Your task to perform on an android device: Check out the best rated 4k TV on Best Buy. Image 0: 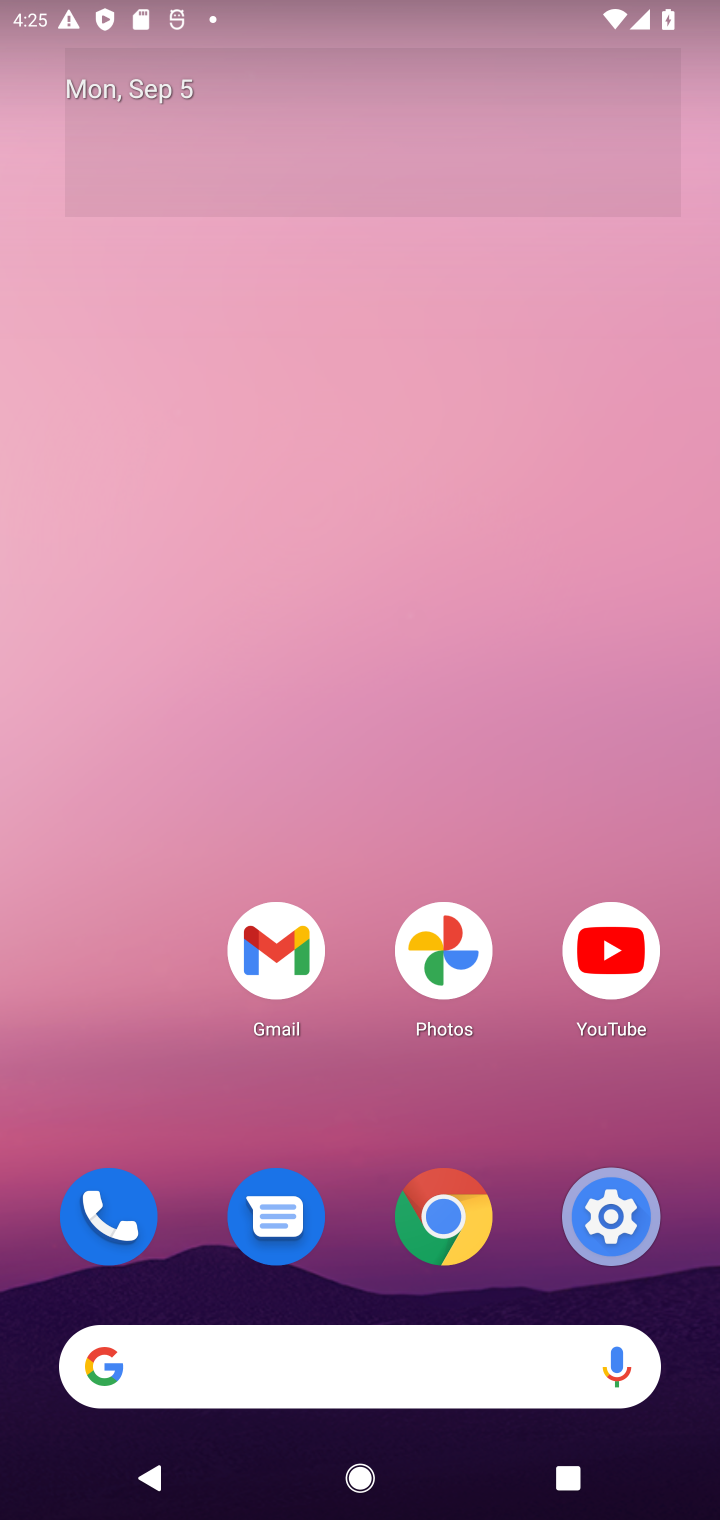
Step 0: click (81, 1374)
Your task to perform on an android device: Check out the best rated 4k TV on Best Buy. Image 1: 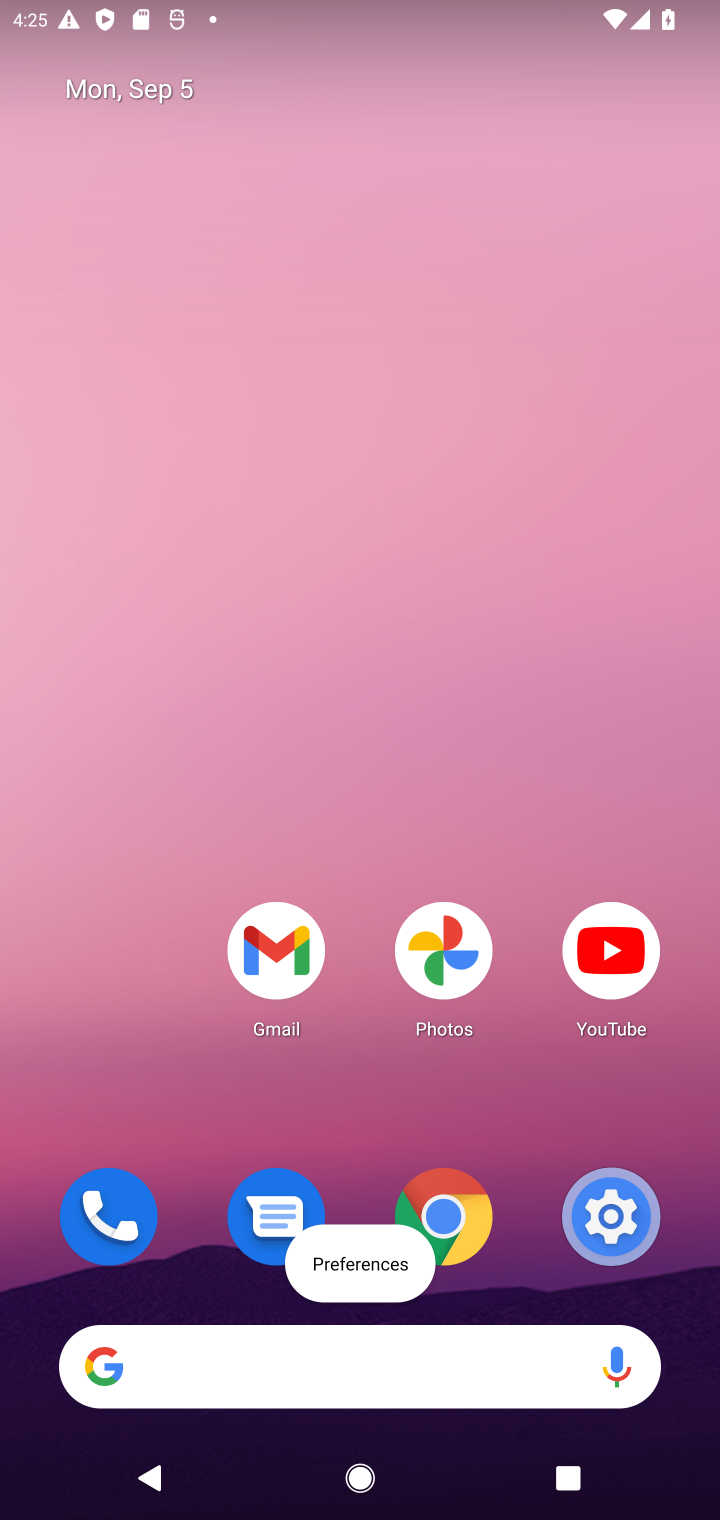
Step 1: click (105, 1364)
Your task to perform on an android device: Check out the best rated 4k TV on Best Buy. Image 2: 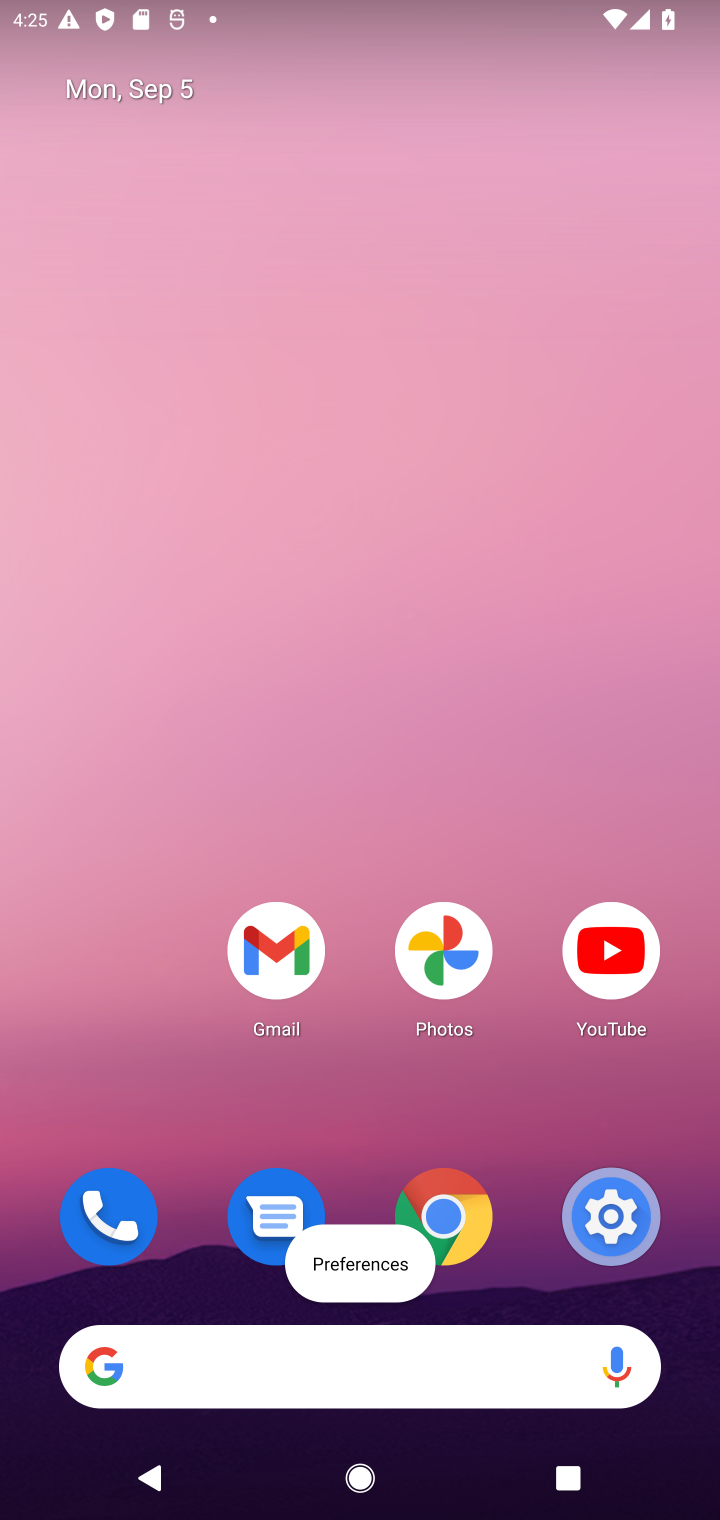
Step 2: click (100, 1364)
Your task to perform on an android device: Check out the best rated 4k TV on Best Buy. Image 3: 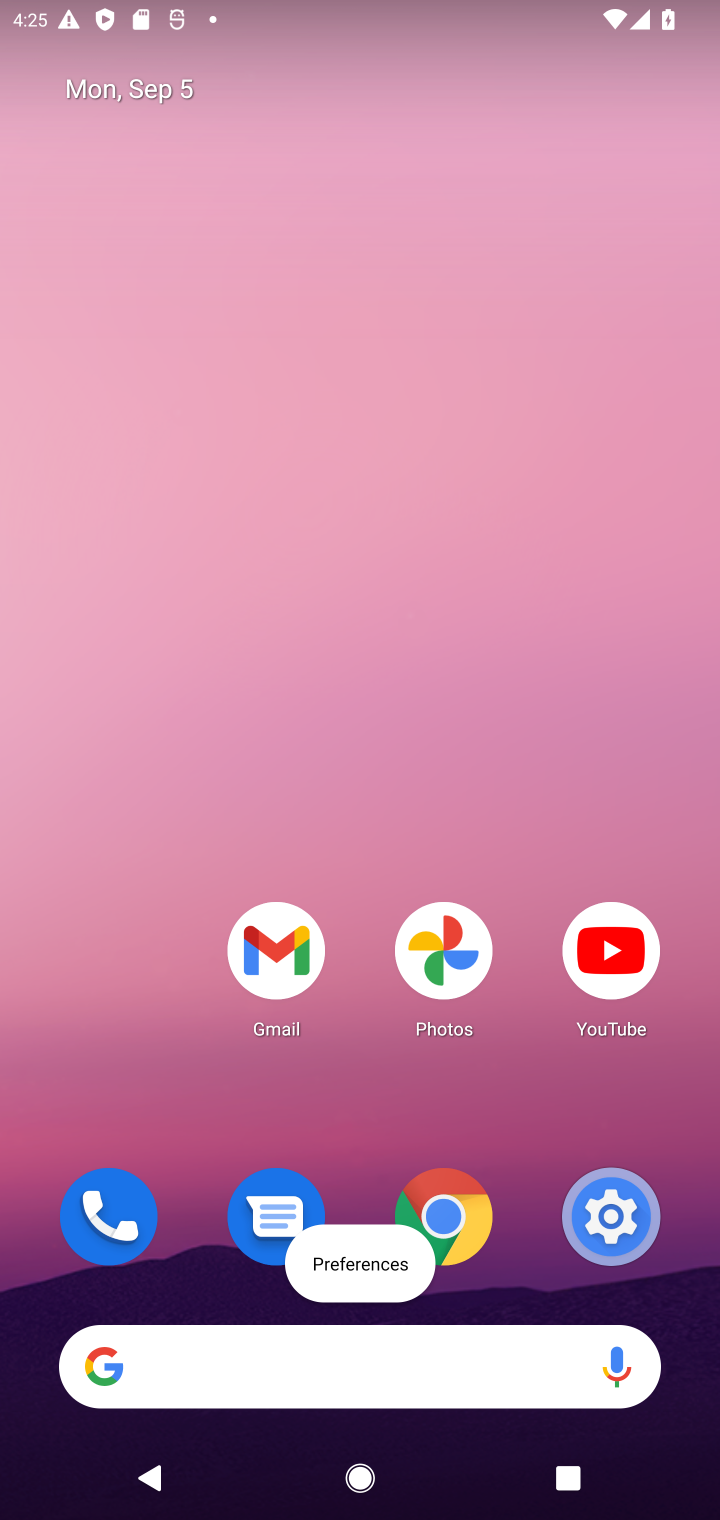
Step 3: click (100, 1364)
Your task to perform on an android device: Check out the best rated 4k TV on Best Buy. Image 4: 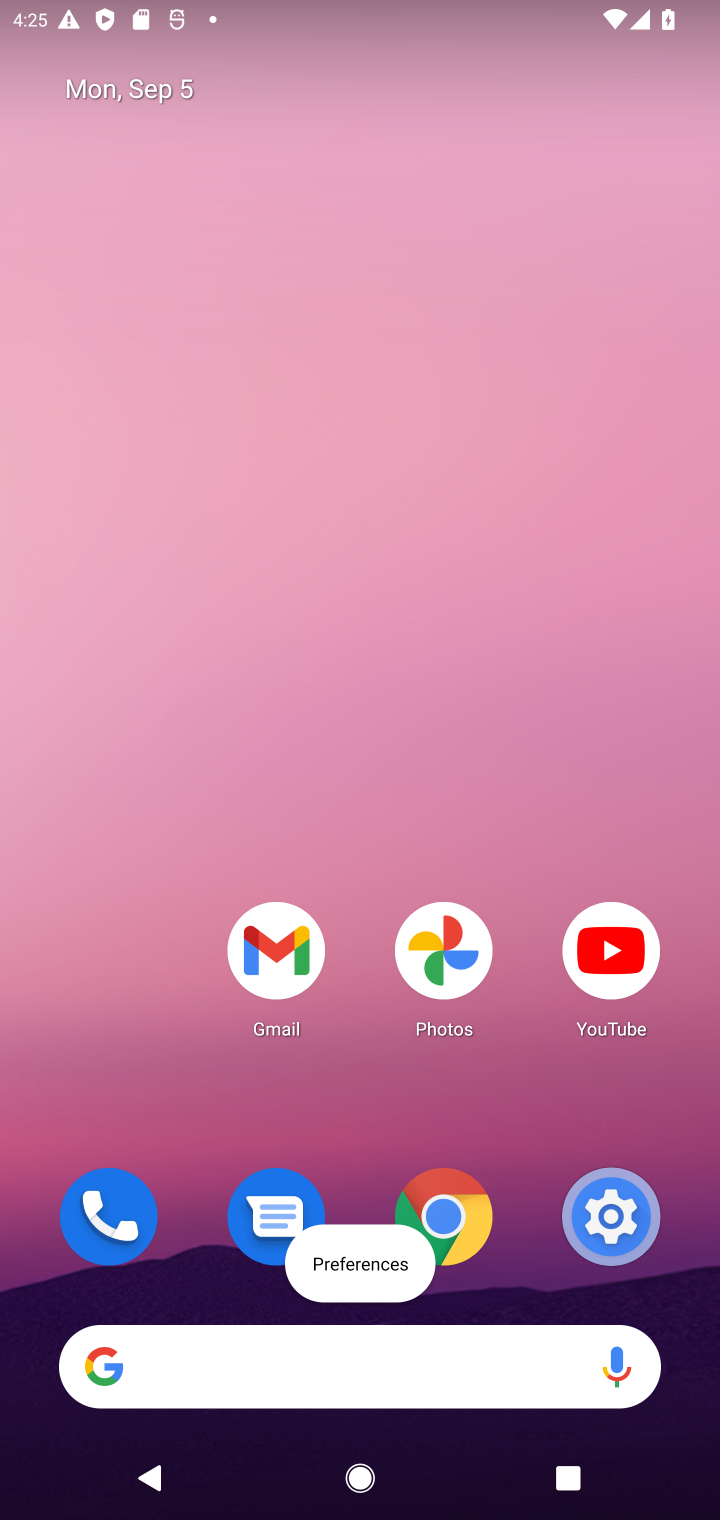
Step 4: click (92, 1375)
Your task to perform on an android device: Check out the best rated 4k TV on Best Buy. Image 5: 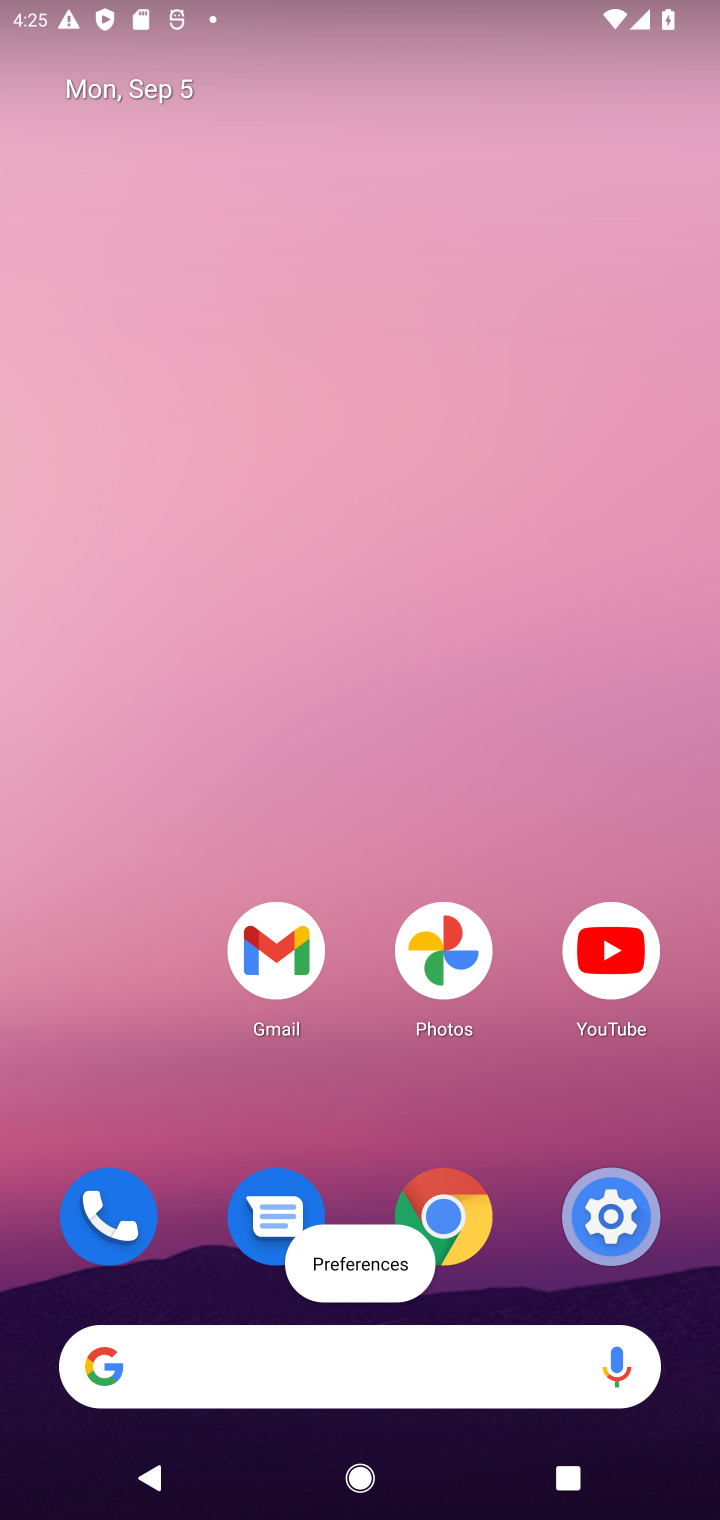
Step 5: click (89, 1369)
Your task to perform on an android device: Check out the best rated 4k TV on Best Buy. Image 6: 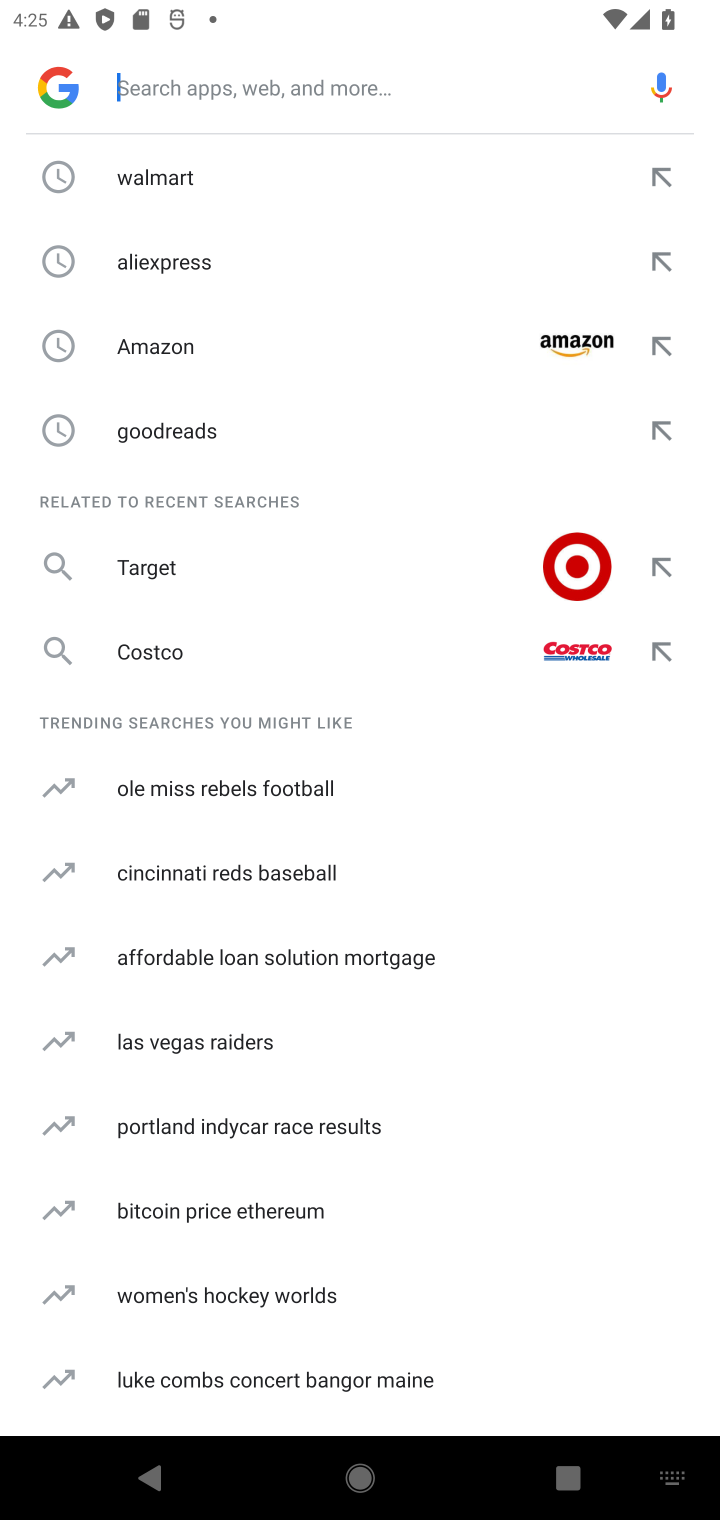
Step 6: type " Best Buy"
Your task to perform on an android device: Check out the best rated 4k TV on Best Buy. Image 7: 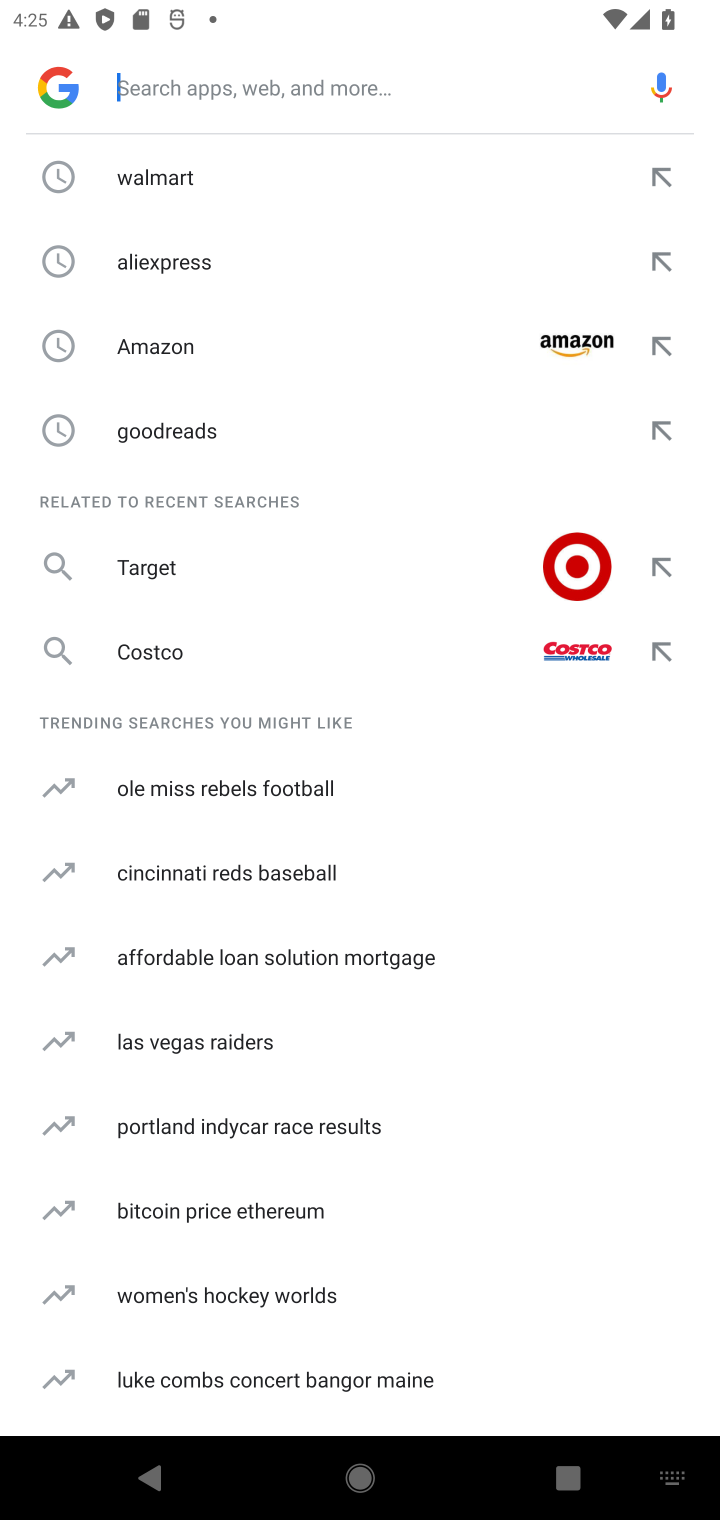
Step 7: click (191, 78)
Your task to perform on an android device: Check out the best rated 4k TV on Best Buy. Image 8: 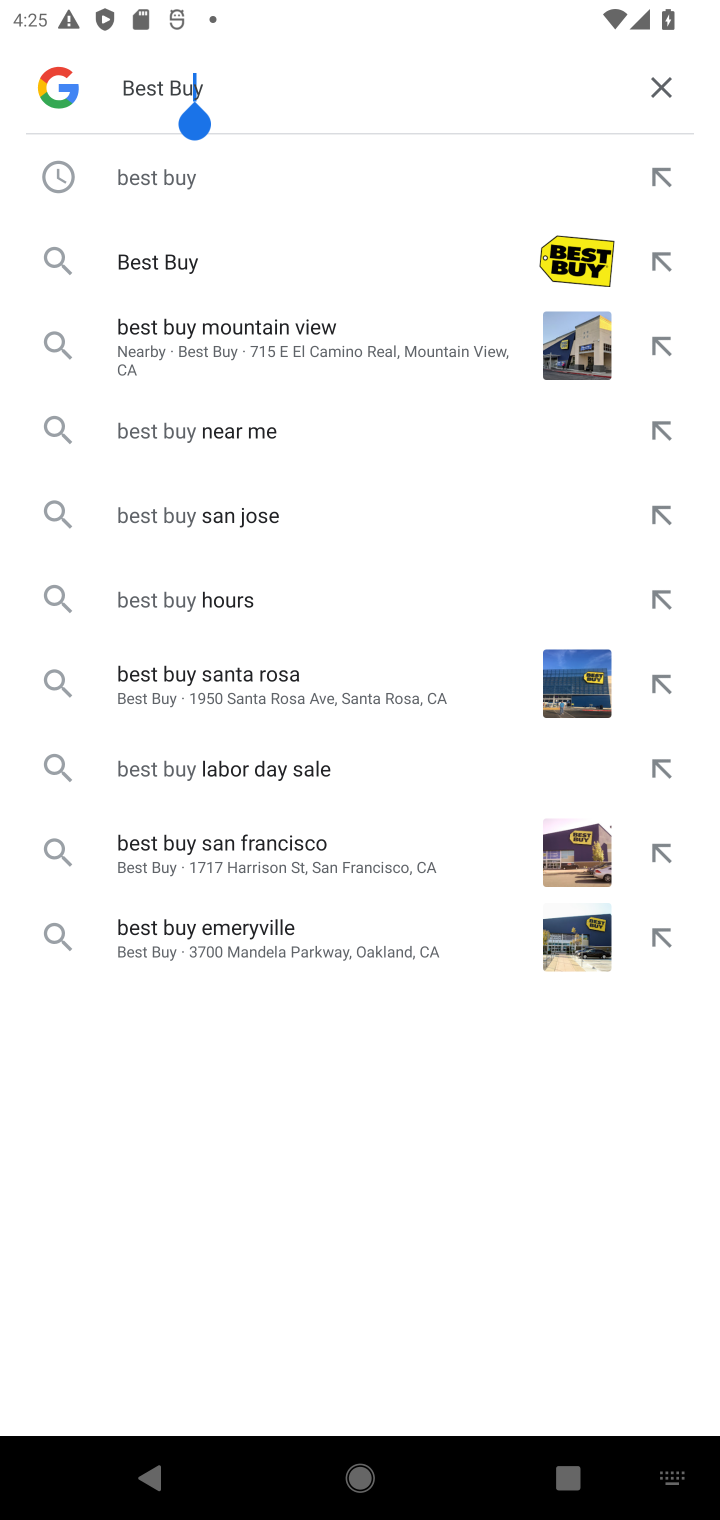
Step 8: press enter
Your task to perform on an android device: Check out the best rated 4k TV on Best Buy. Image 9: 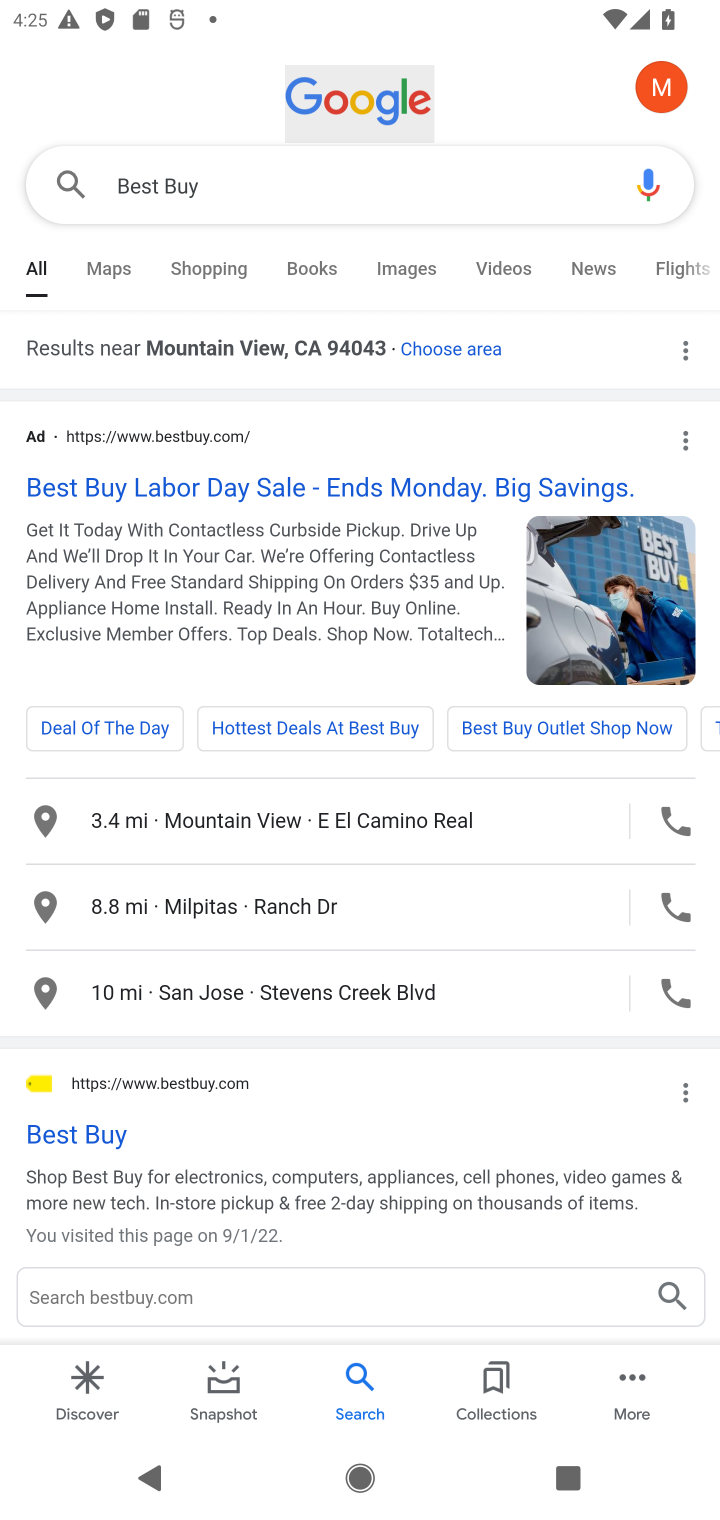
Step 9: click (53, 1139)
Your task to perform on an android device: Check out the best rated 4k TV on Best Buy. Image 10: 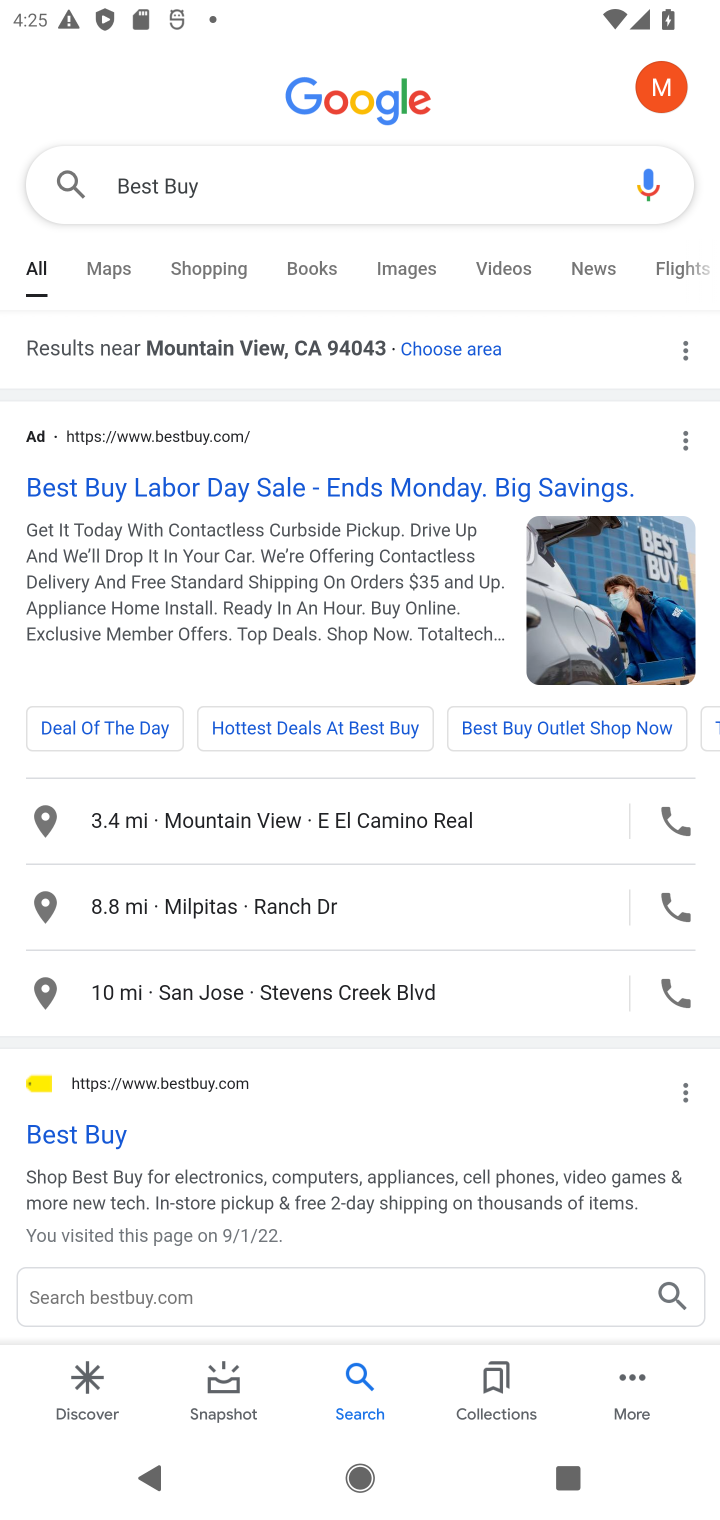
Step 10: click (95, 1132)
Your task to perform on an android device: Check out the best rated 4k TV on Best Buy. Image 11: 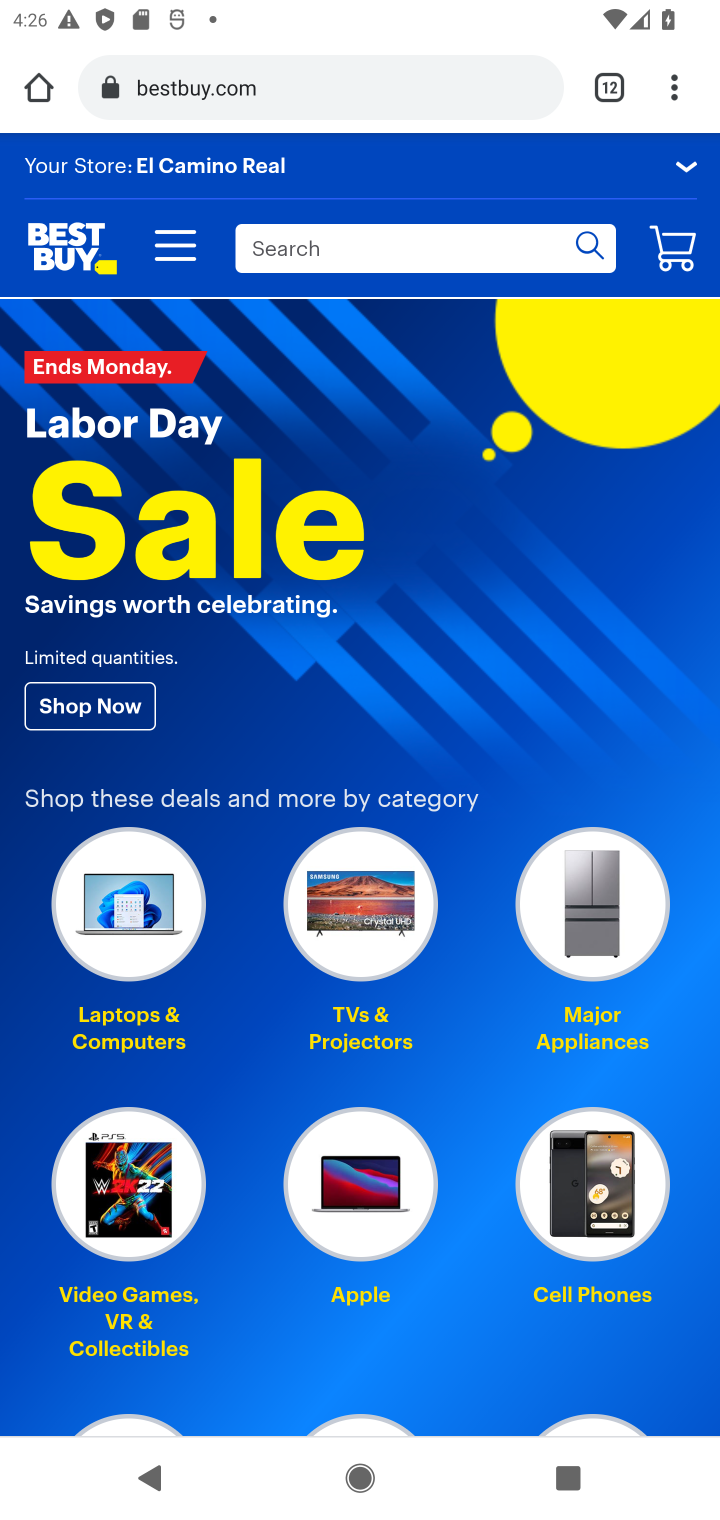
Step 11: click (411, 240)
Your task to perform on an android device: Check out the best rated 4k TV on Best Buy. Image 12: 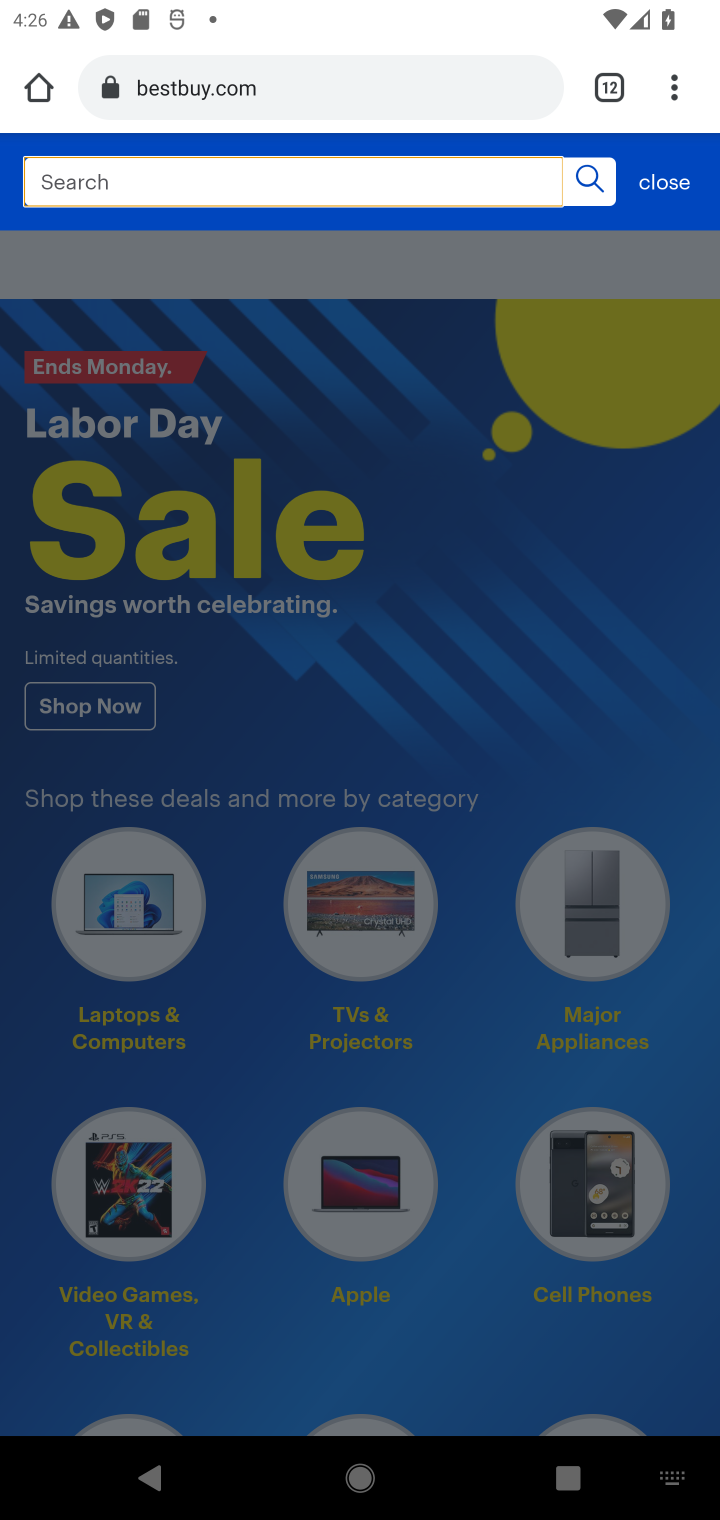
Step 12: type "4k TV"
Your task to perform on an android device: Check out the best rated 4k TV on Best Buy. Image 13: 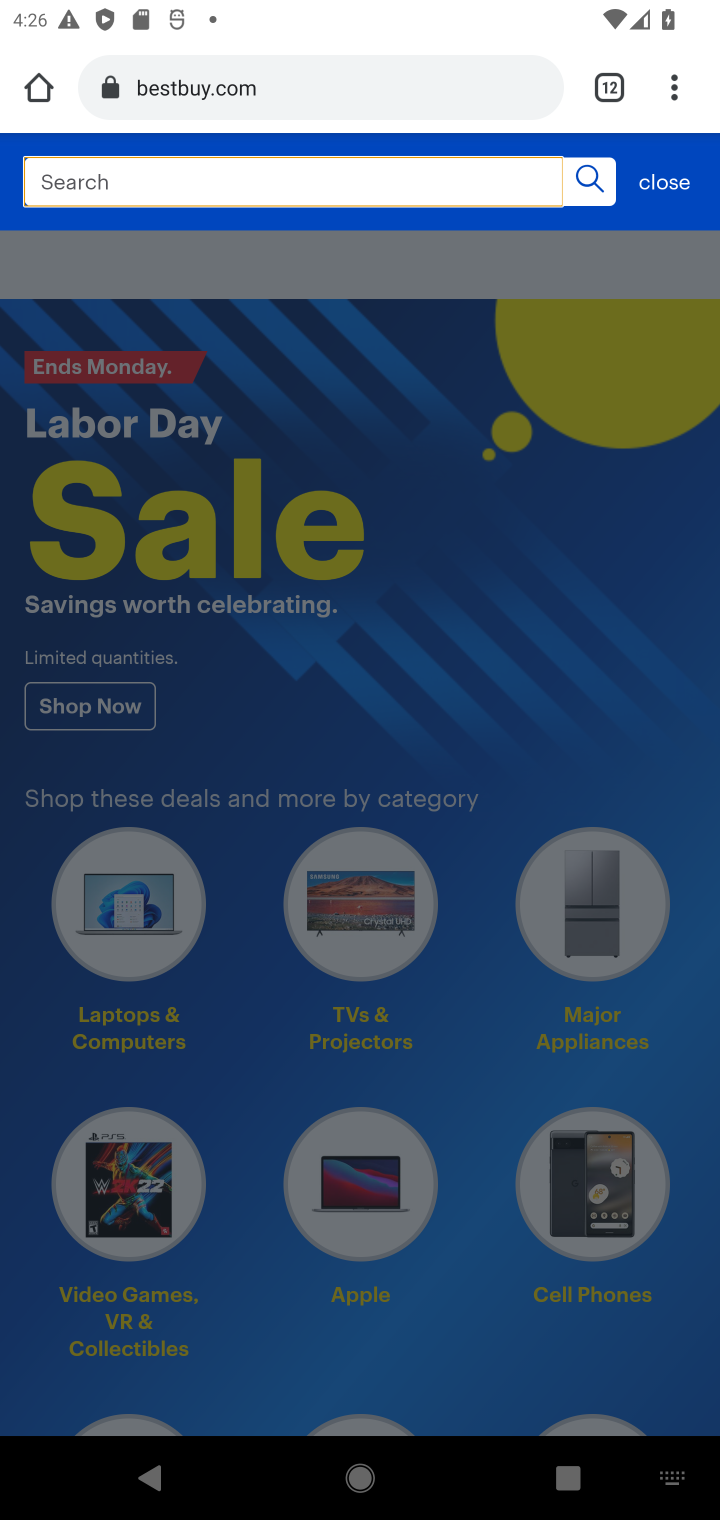
Step 13: click (217, 173)
Your task to perform on an android device: Check out the best rated 4k TV on Best Buy. Image 14: 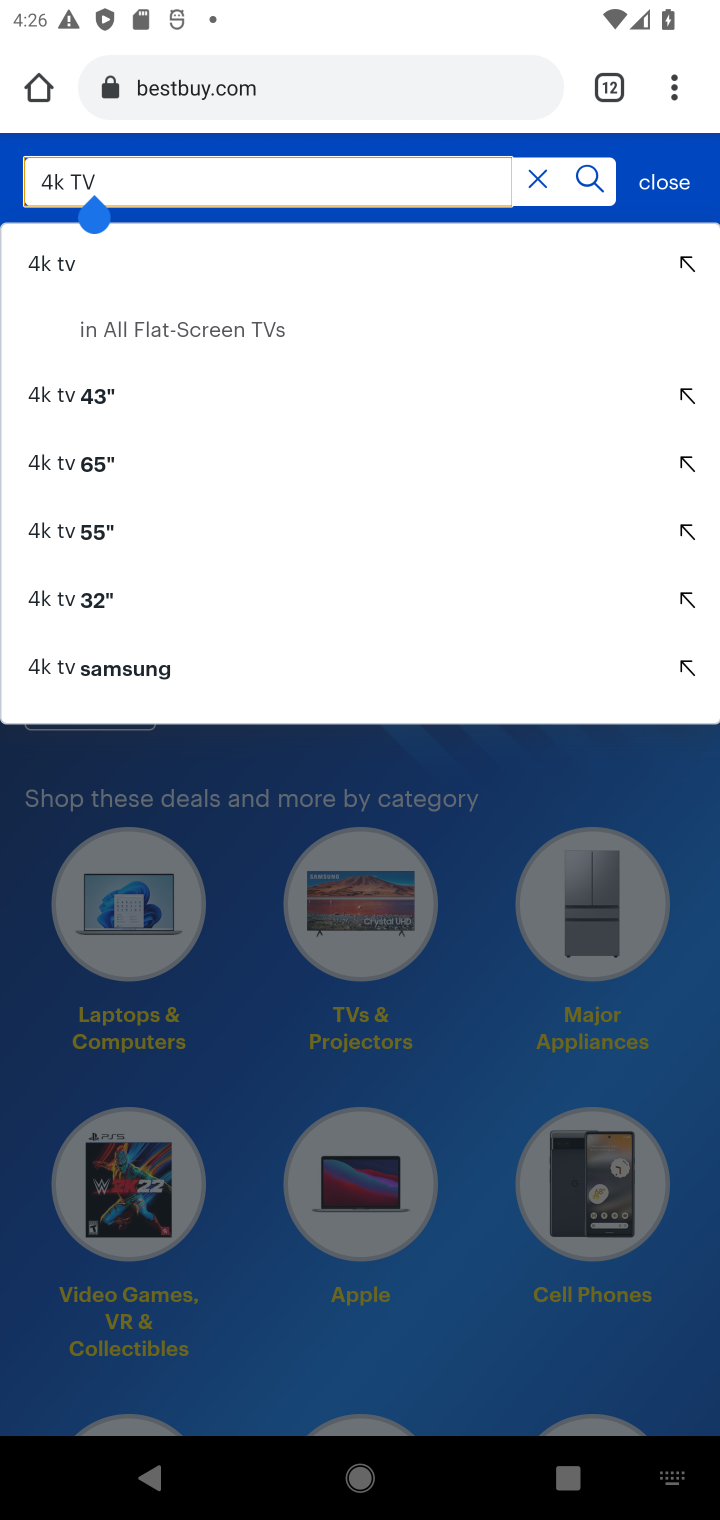
Step 14: press enter
Your task to perform on an android device: Check out the best rated 4k TV on Best Buy. Image 15: 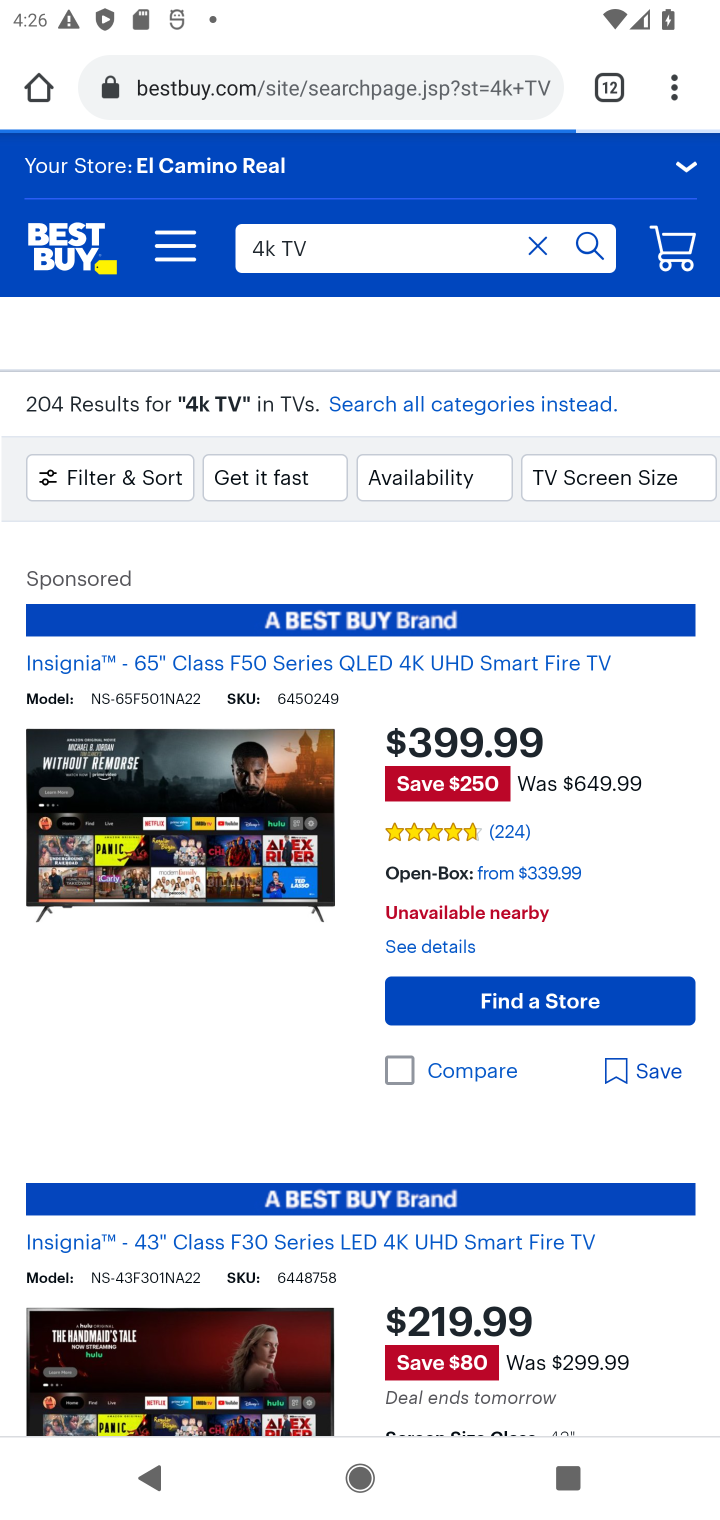
Step 15: click (89, 485)
Your task to perform on an android device: Check out the best rated 4k TV on Best Buy. Image 16: 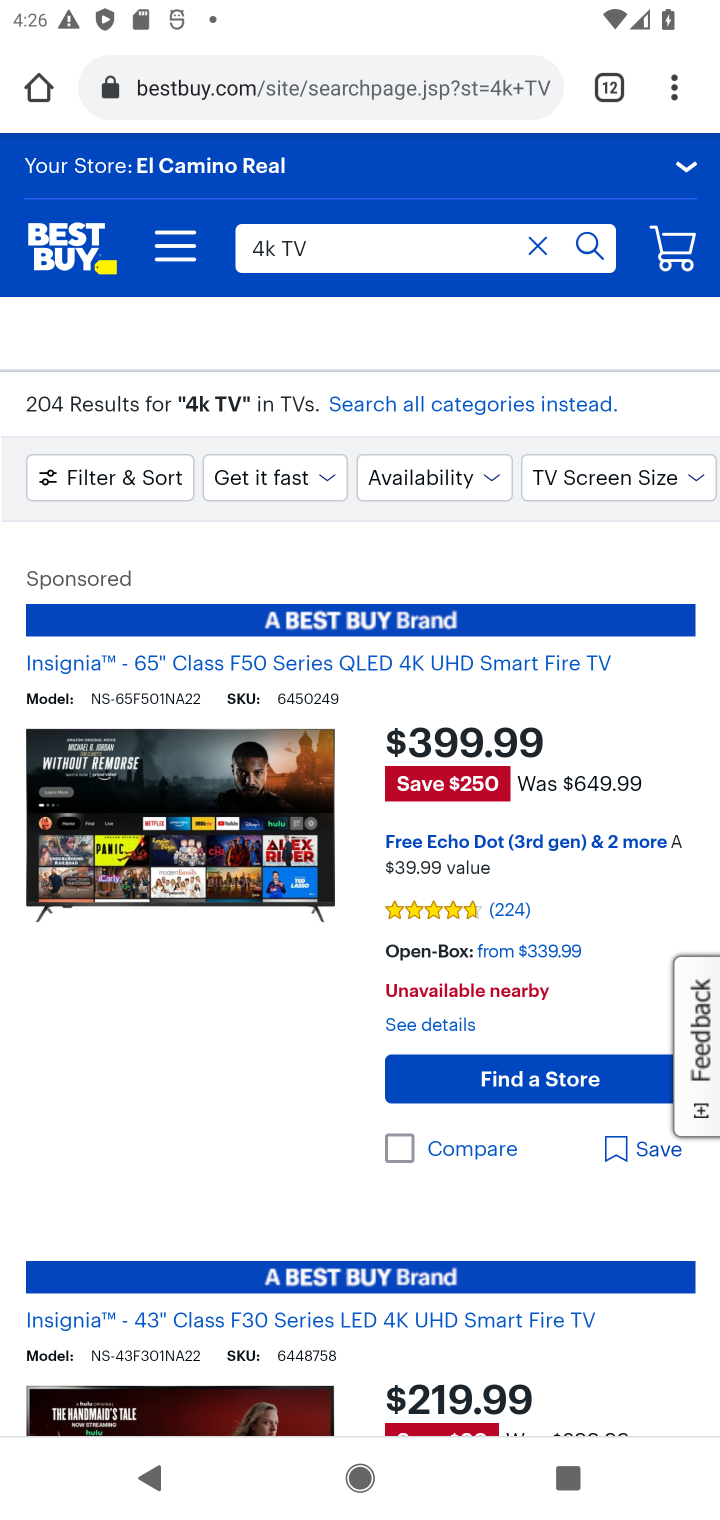
Step 16: click (133, 466)
Your task to perform on an android device: Check out the best rated 4k TV on Best Buy. Image 17: 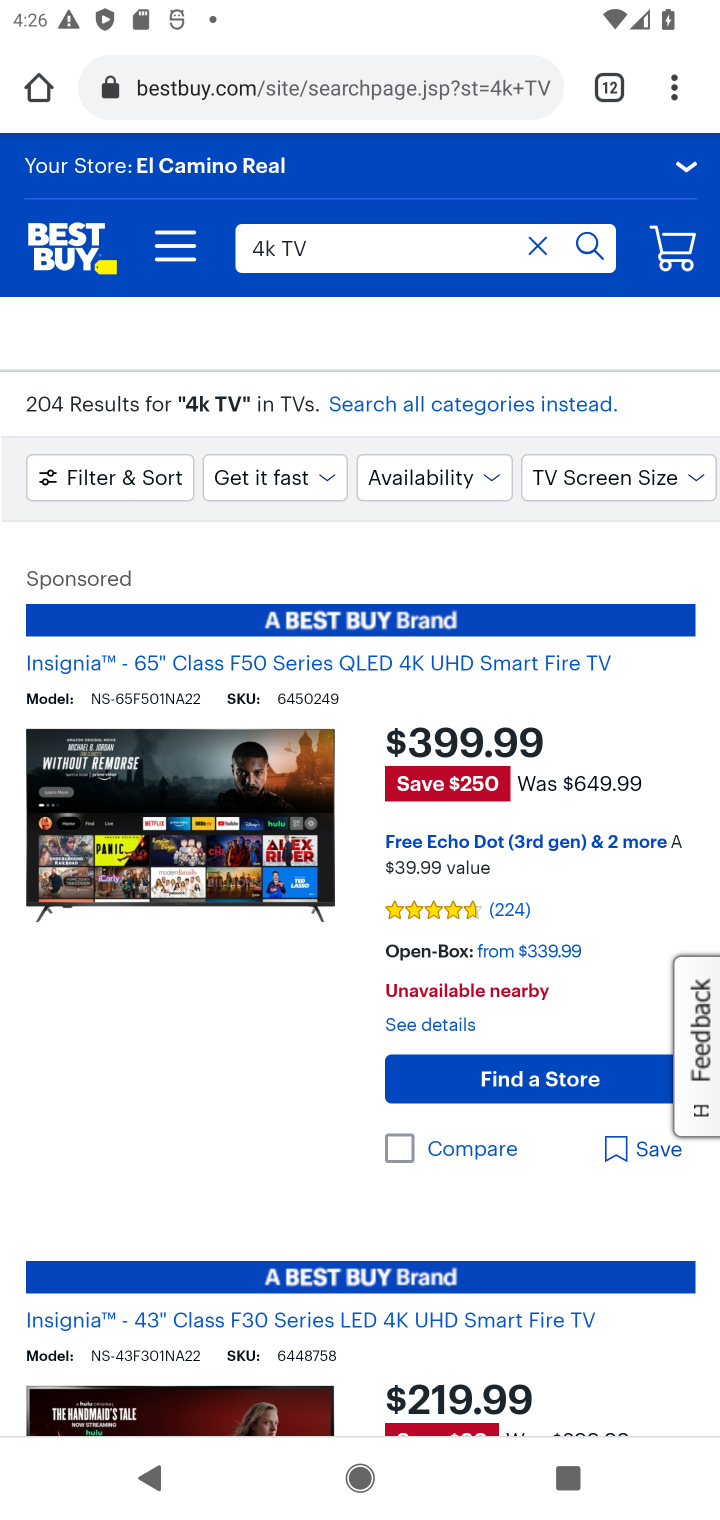
Step 17: click (133, 466)
Your task to perform on an android device: Check out the best rated 4k TV on Best Buy. Image 18: 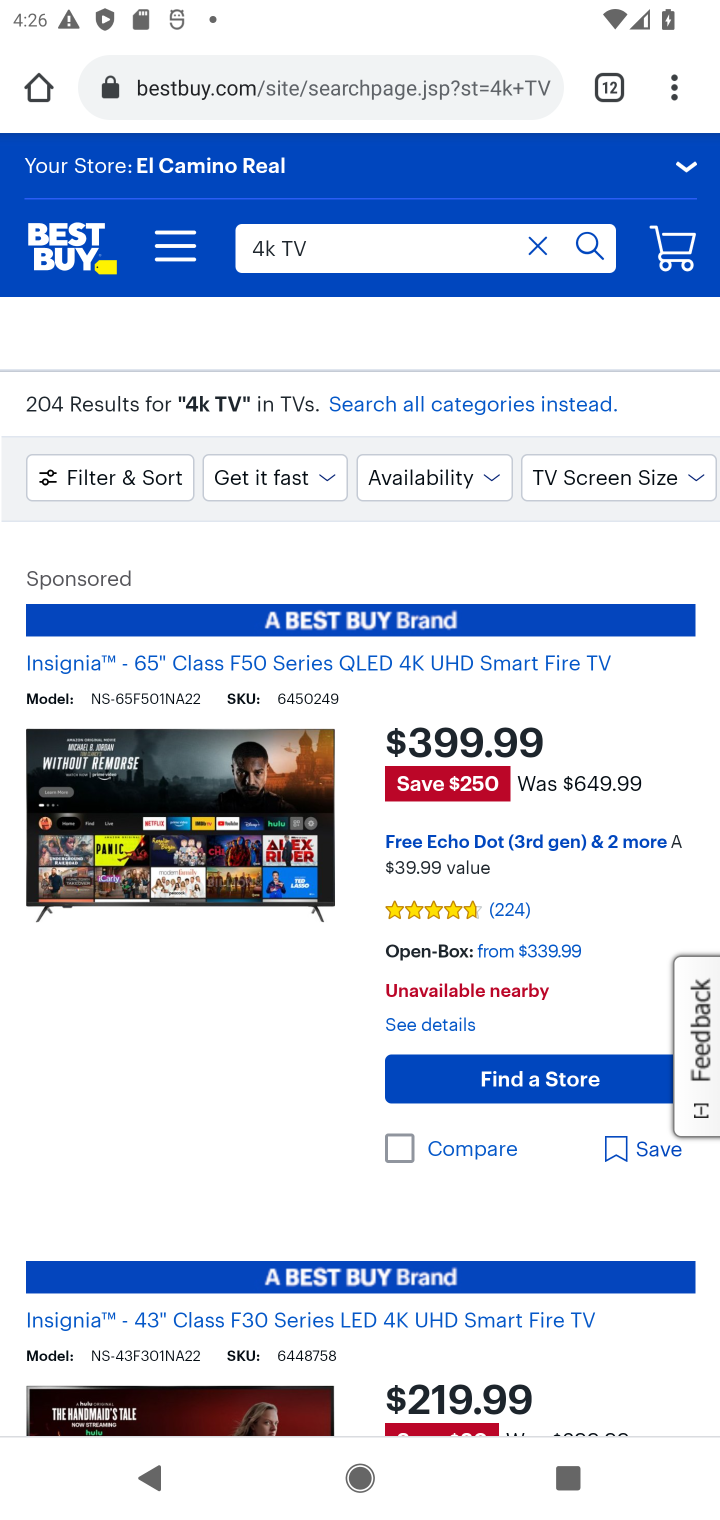
Step 18: click (129, 481)
Your task to perform on an android device: Check out the best rated 4k TV on Best Buy. Image 19: 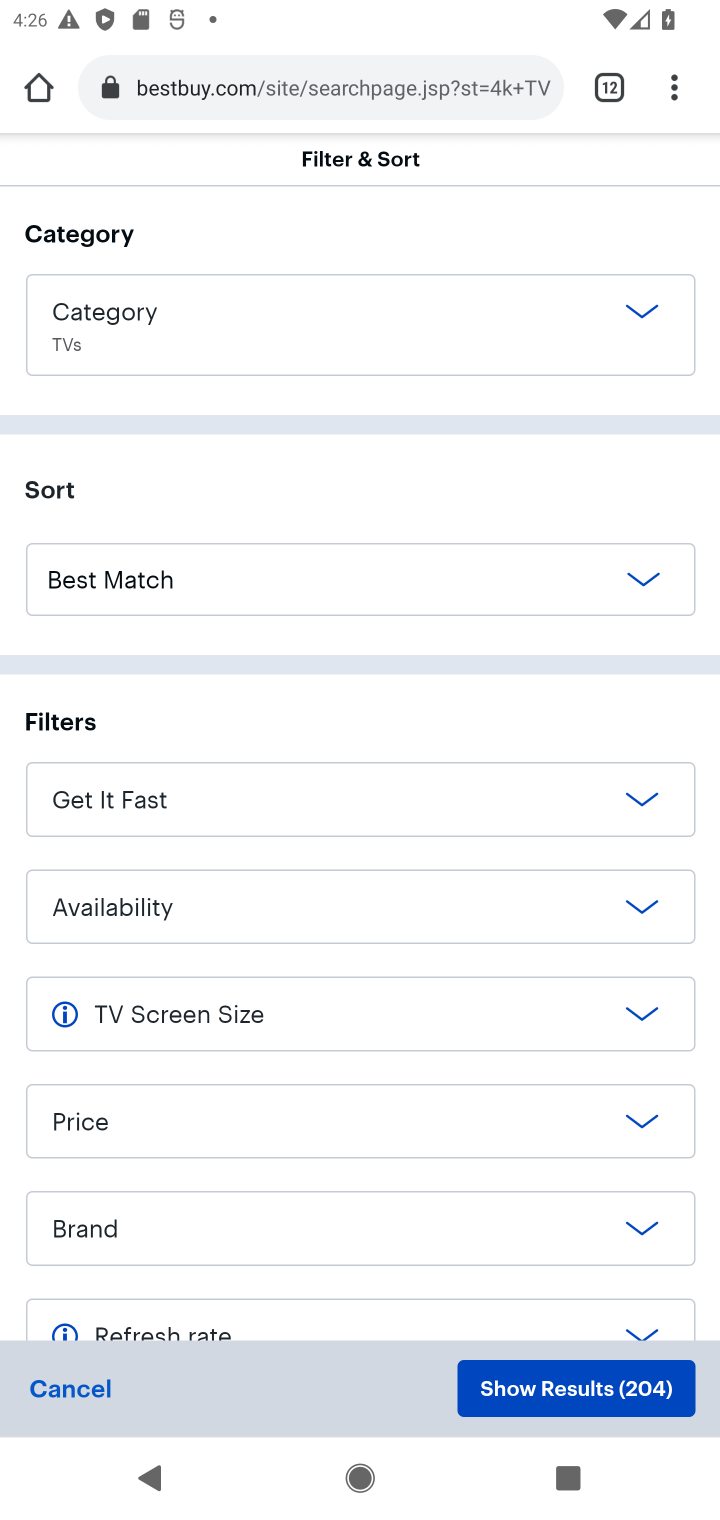
Step 19: drag from (29, 1279) to (110, 284)
Your task to perform on an android device: Check out the best rated 4k TV on Best Buy. Image 20: 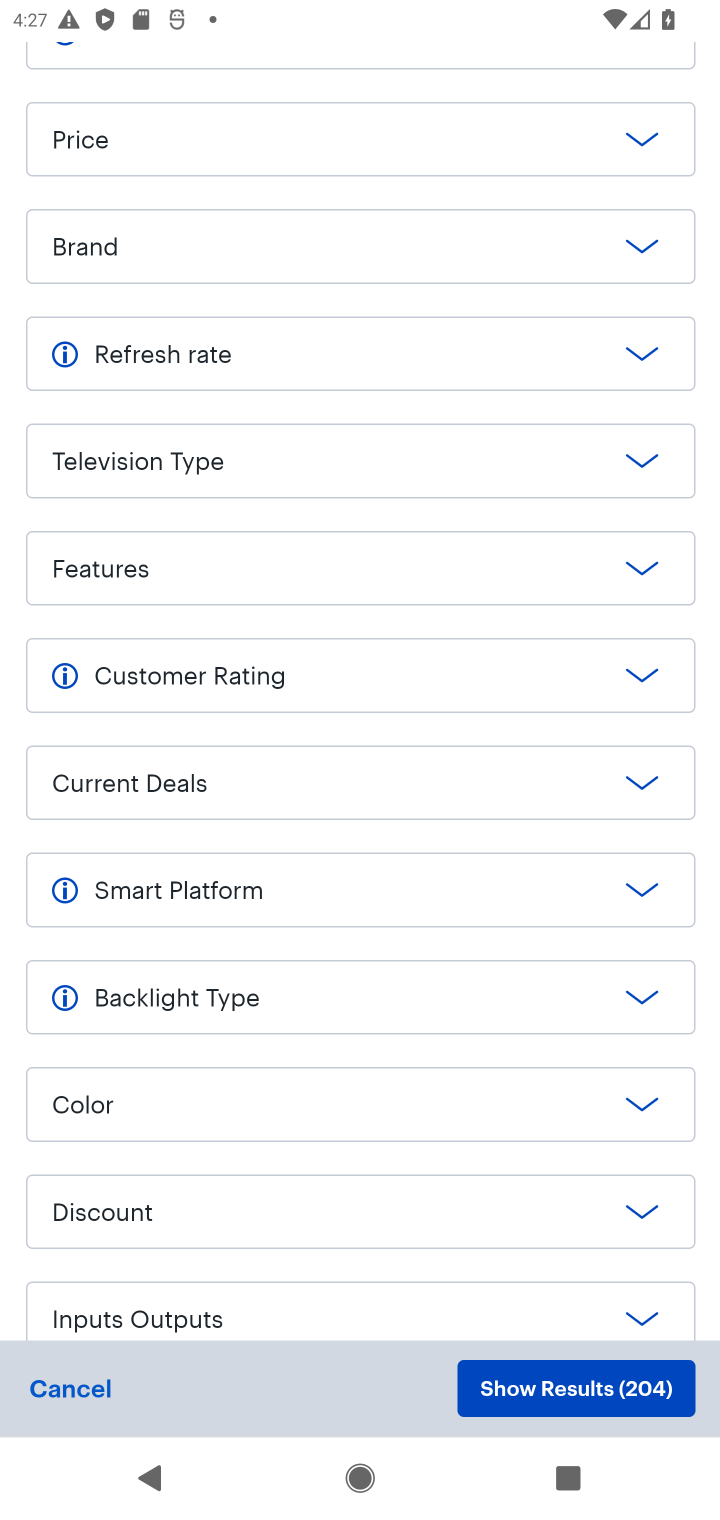
Step 20: drag from (129, 1160) to (185, 116)
Your task to perform on an android device: Check out the best rated 4k TV on Best Buy. Image 21: 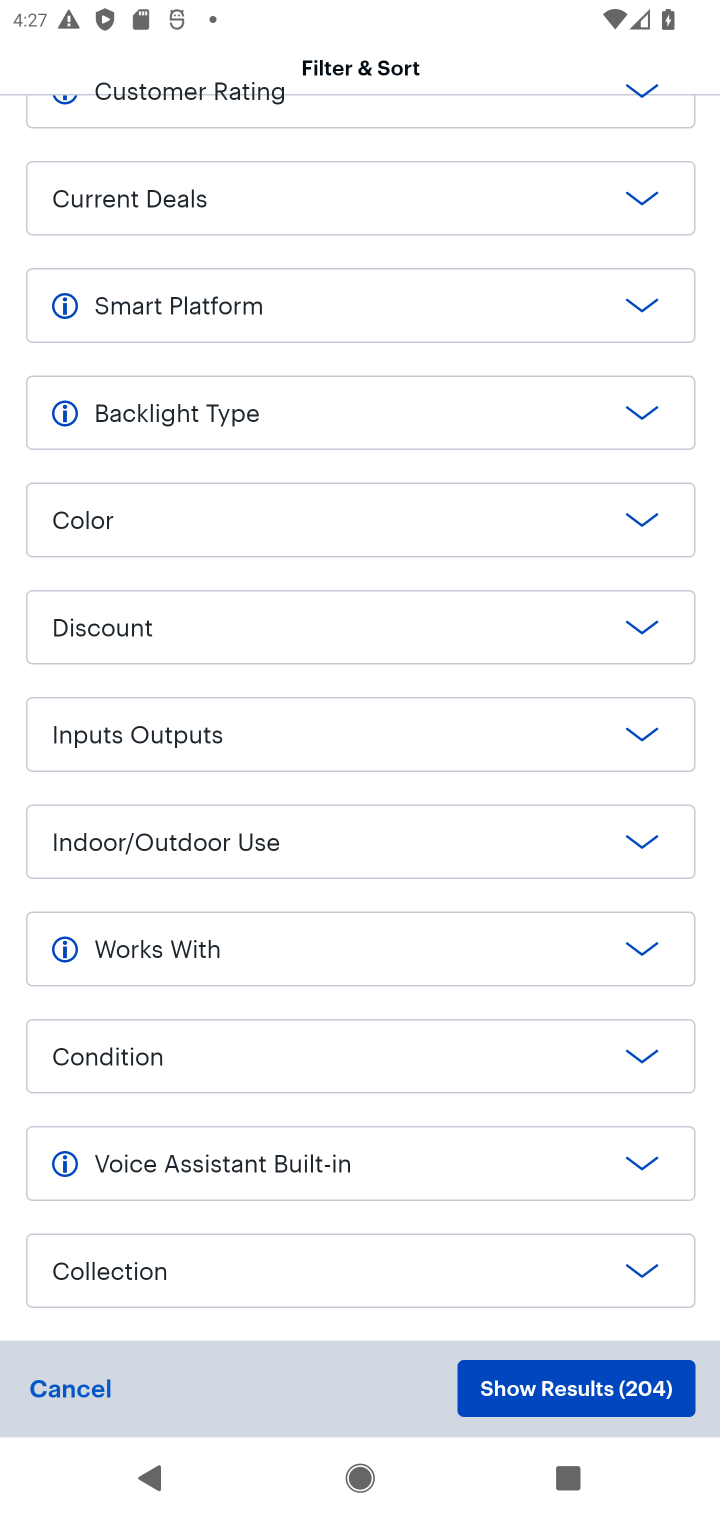
Step 21: drag from (202, 1224) to (195, 282)
Your task to perform on an android device: Check out the best rated 4k TV on Best Buy. Image 22: 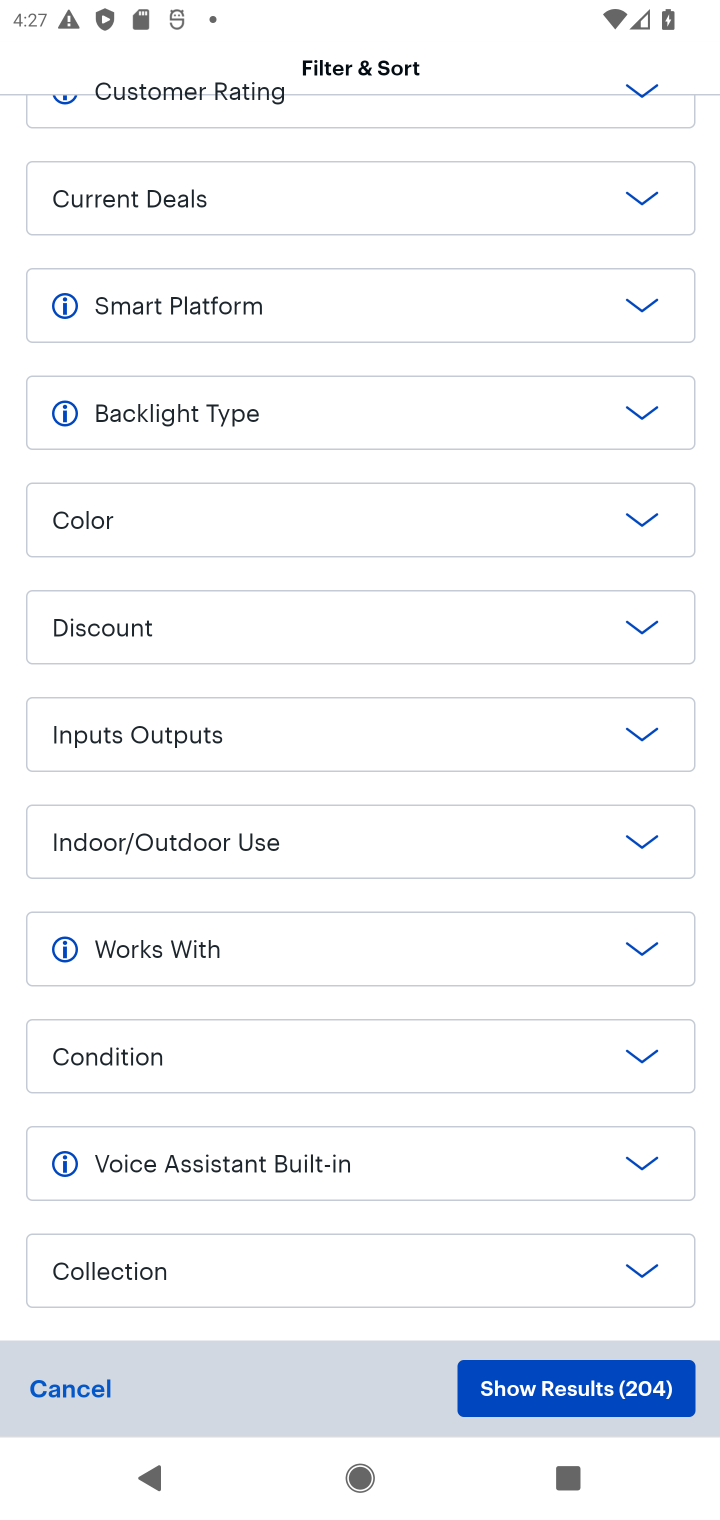
Step 22: click (69, 380)
Your task to perform on an android device: Check out the best rated 4k TV on Best Buy. Image 23: 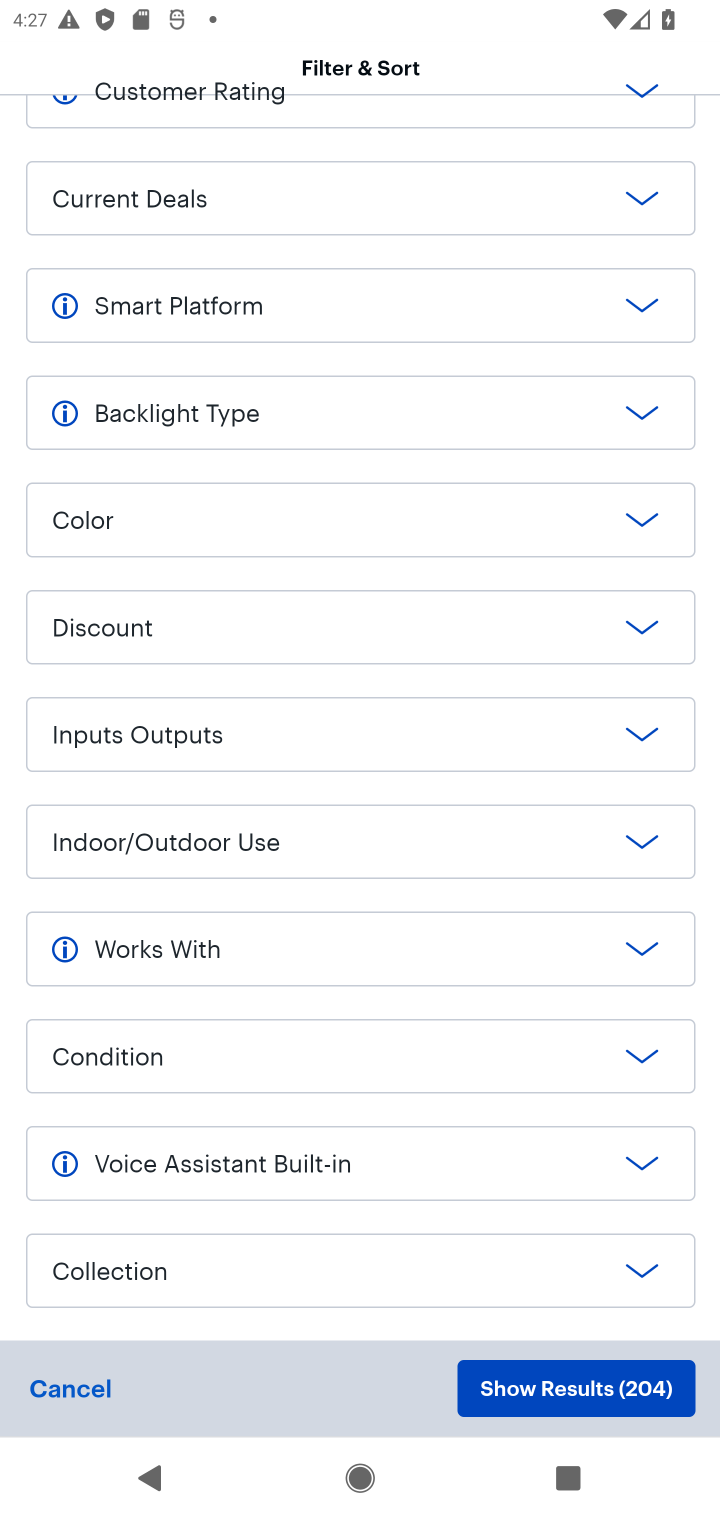
Step 23: drag from (69, 1115) to (119, 352)
Your task to perform on an android device: Check out the best rated 4k TV on Best Buy. Image 24: 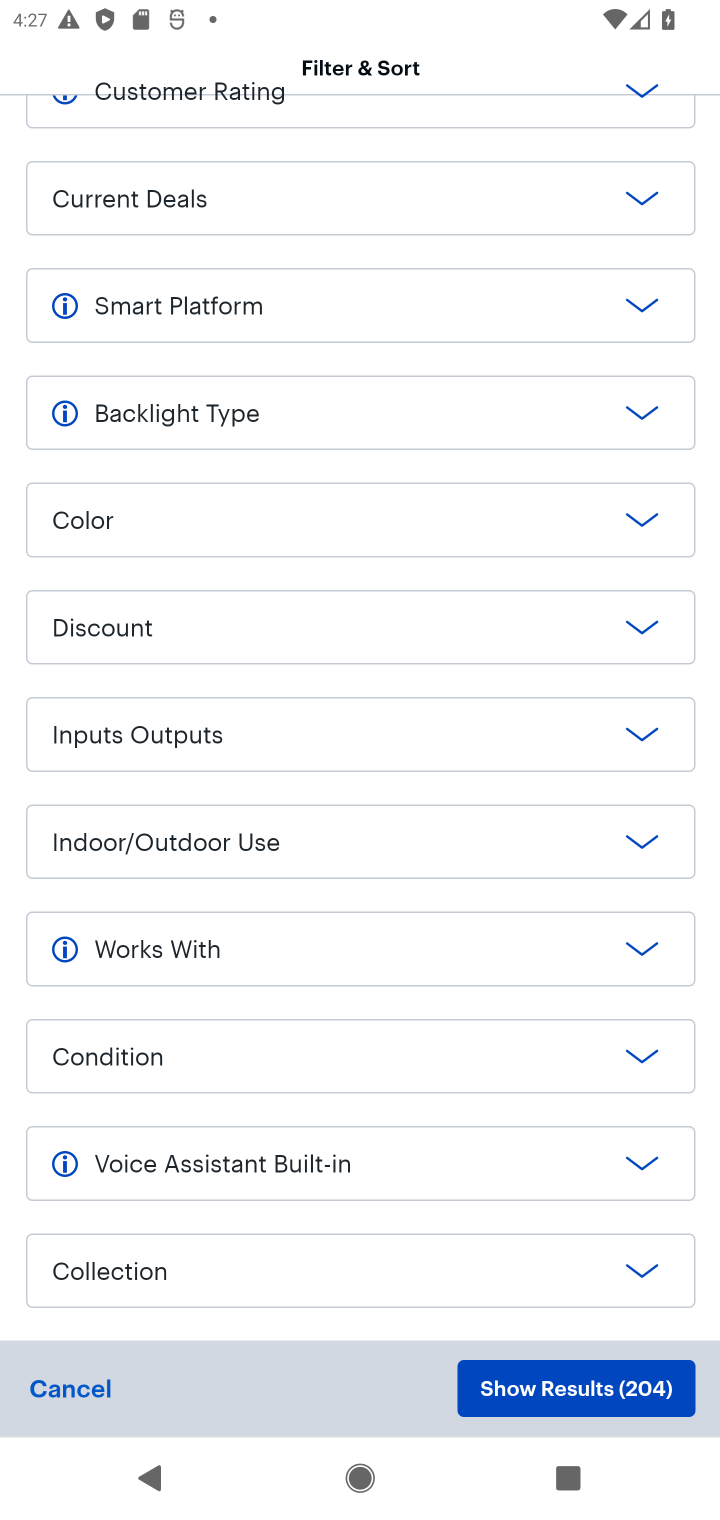
Step 24: drag from (536, 1213) to (439, 295)
Your task to perform on an android device: Check out the best rated 4k TV on Best Buy. Image 25: 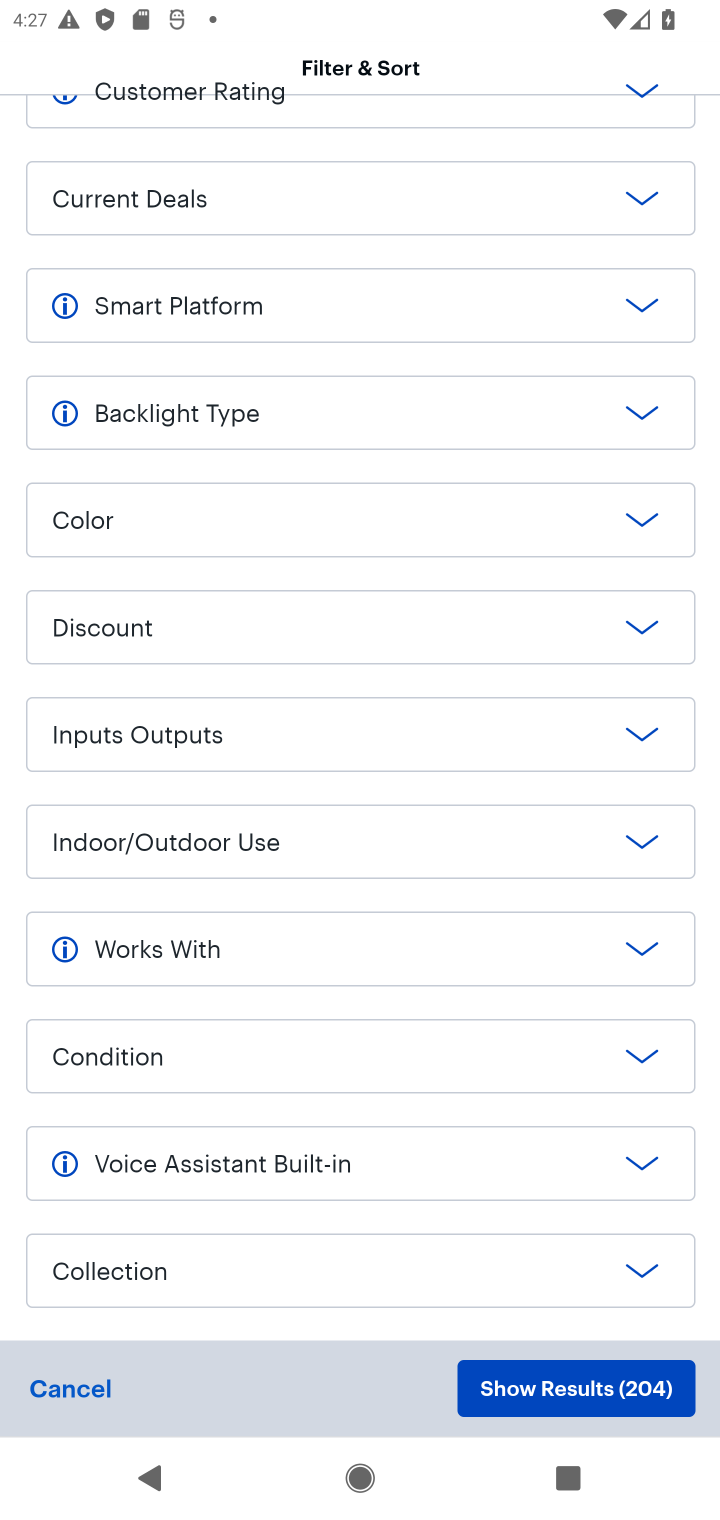
Step 25: drag from (37, 891) to (150, 34)
Your task to perform on an android device: Check out the best rated 4k TV on Best Buy. Image 26: 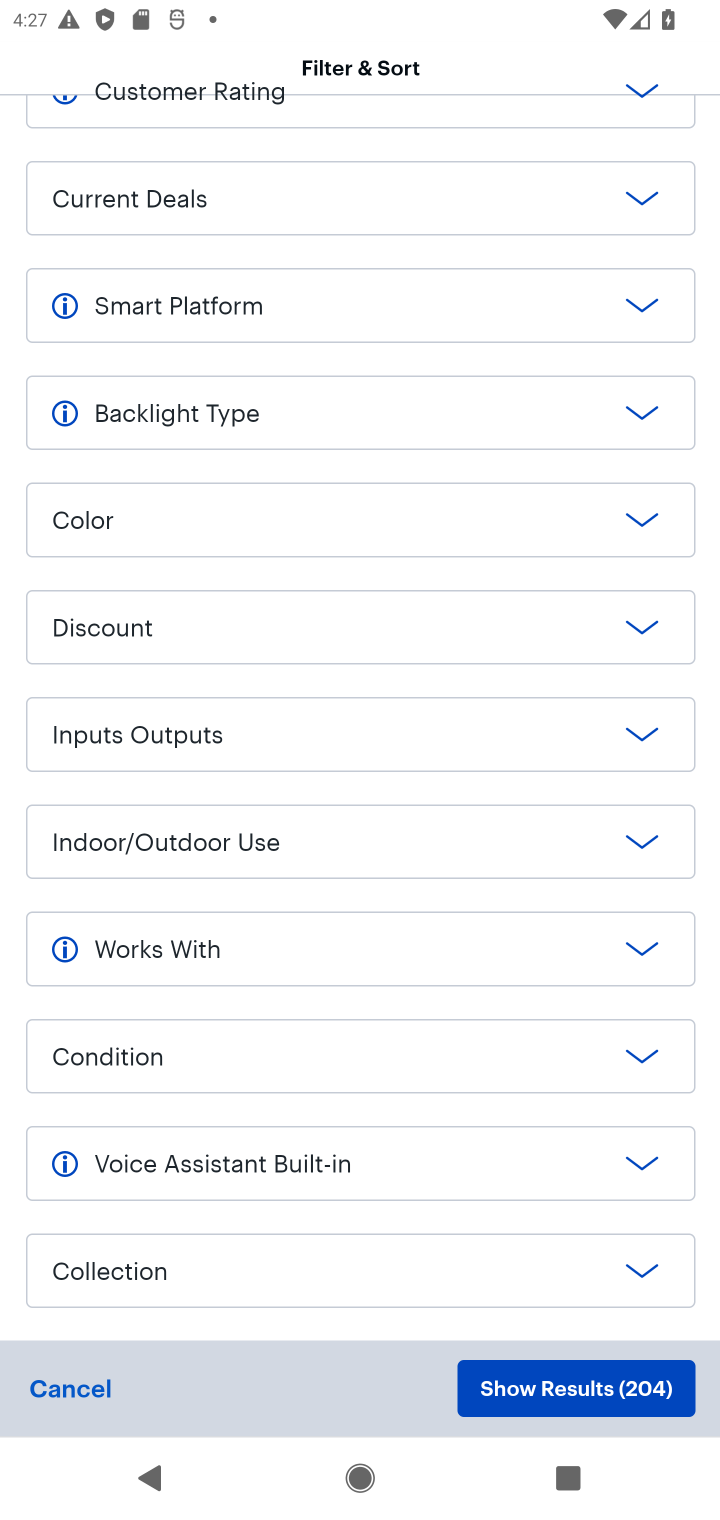
Step 26: drag from (310, 1208) to (331, 111)
Your task to perform on an android device: Check out the best rated 4k TV on Best Buy. Image 27: 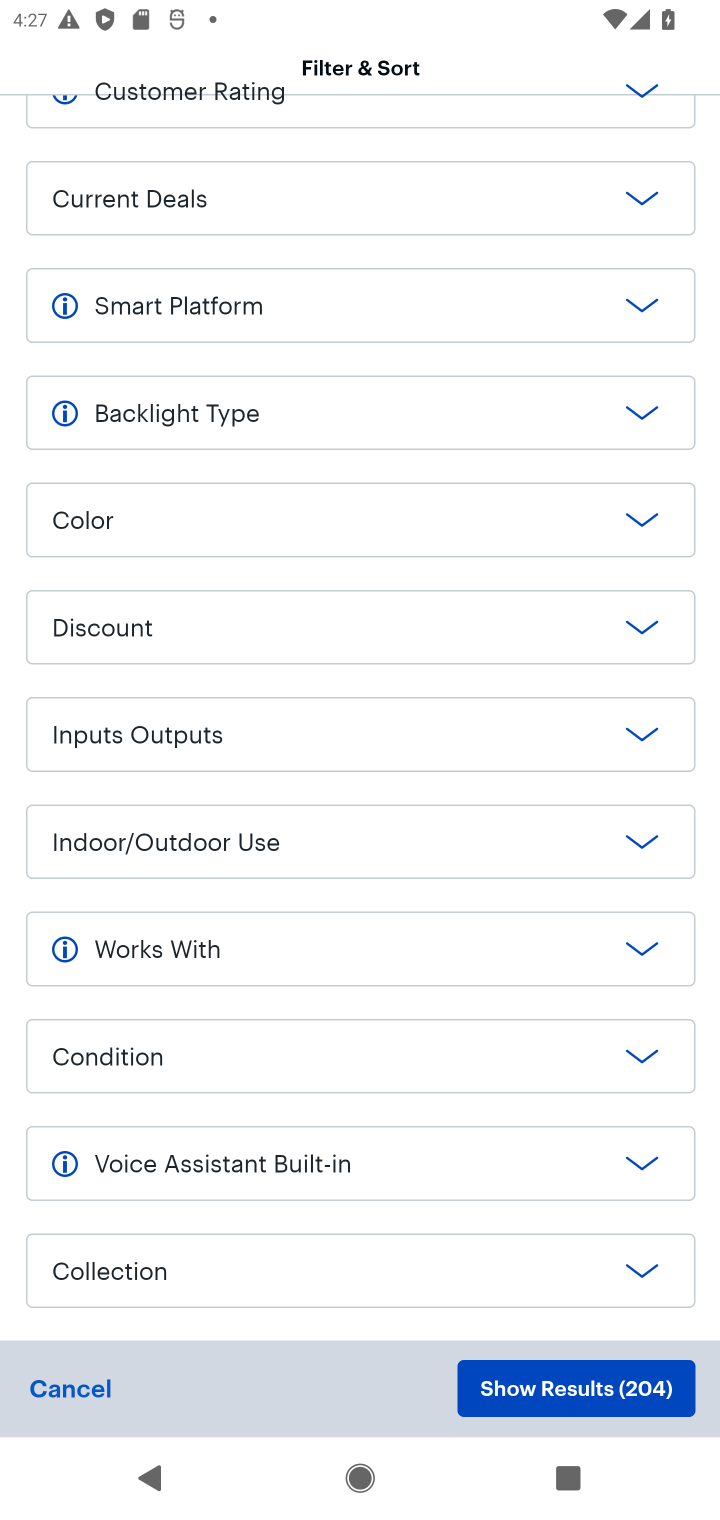
Step 27: click (66, 1389)
Your task to perform on an android device: Check out the best rated 4k TV on Best Buy. Image 28: 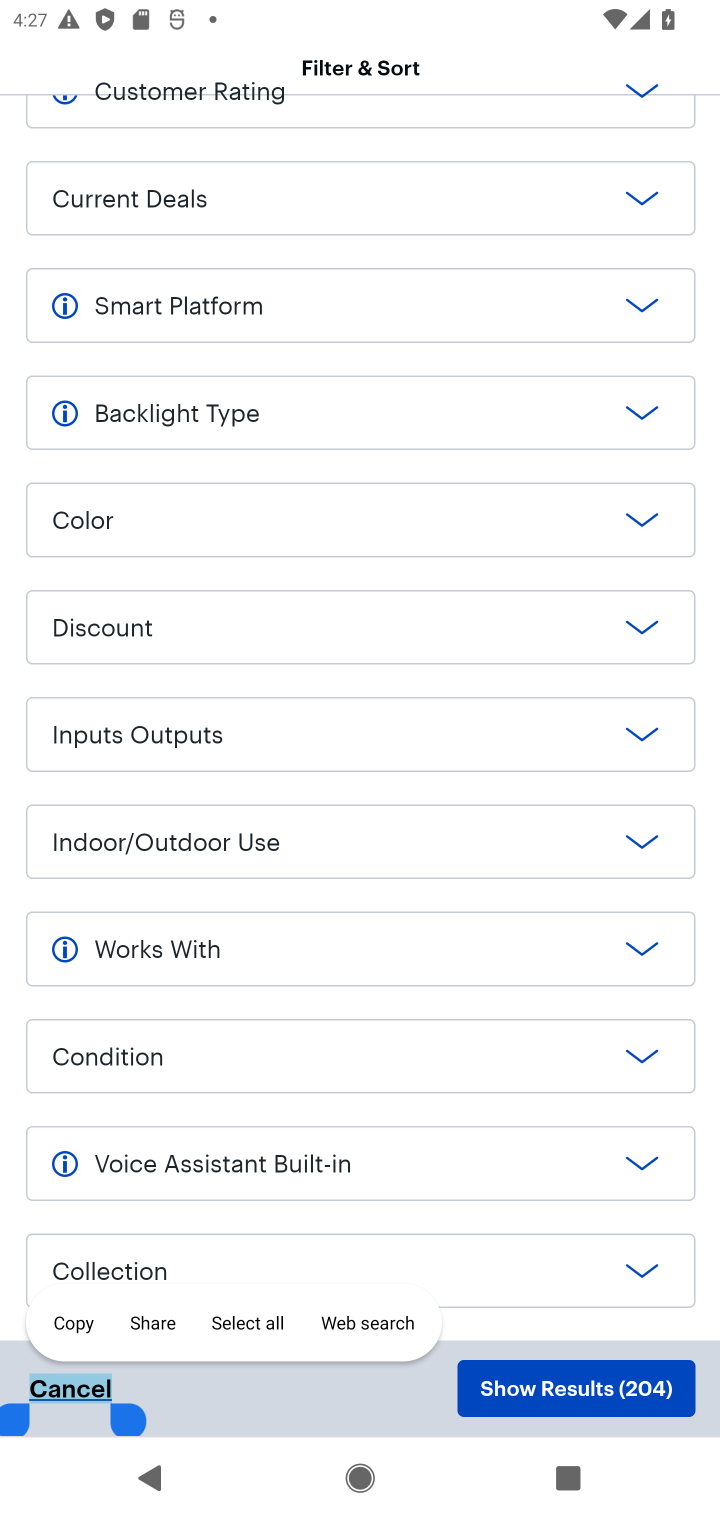
Step 28: click (66, 1389)
Your task to perform on an android device: Check out the best rated 4k TV on Best Buy. Image 29: 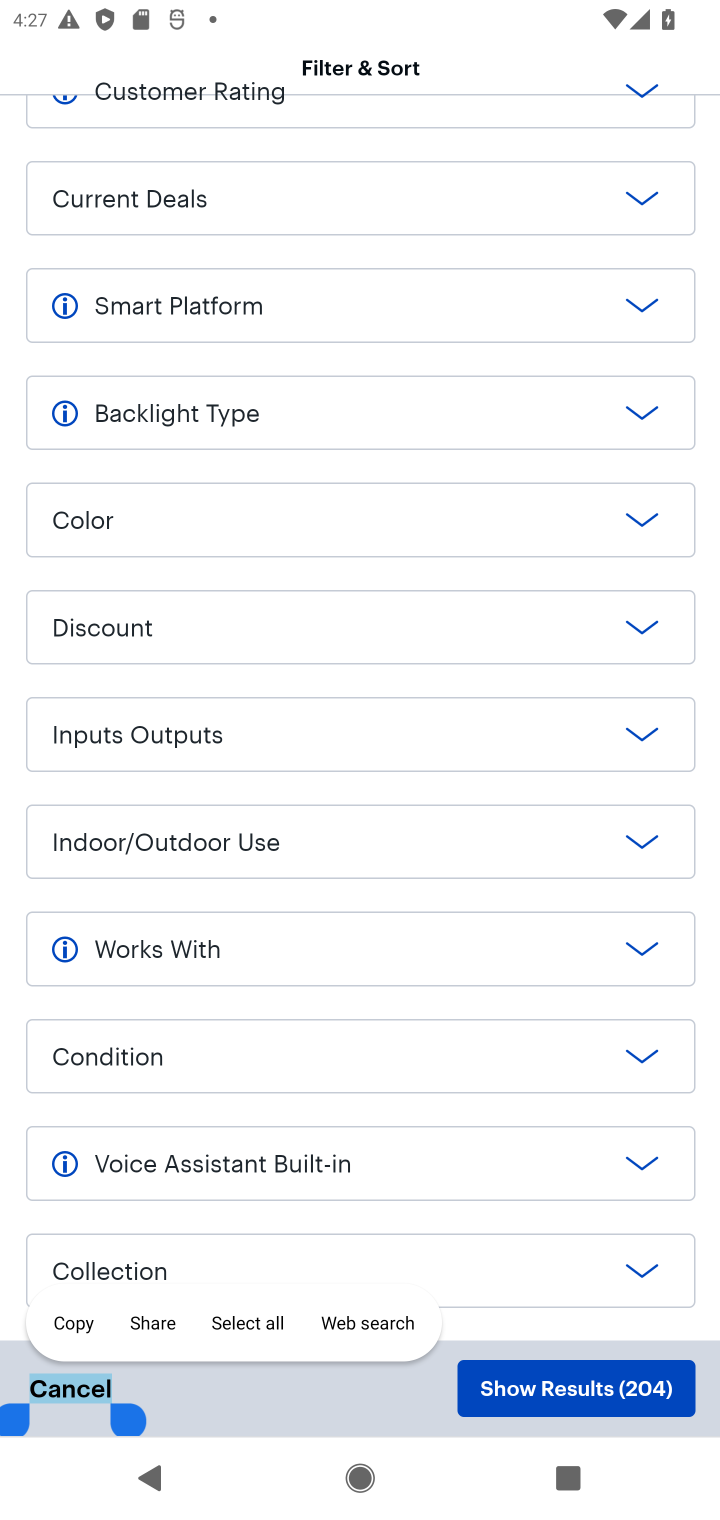
Step 29: click (463, 1212)
Your task to perform on an android device: Check out the best rated 4k TV on Best Buy. Image 30: 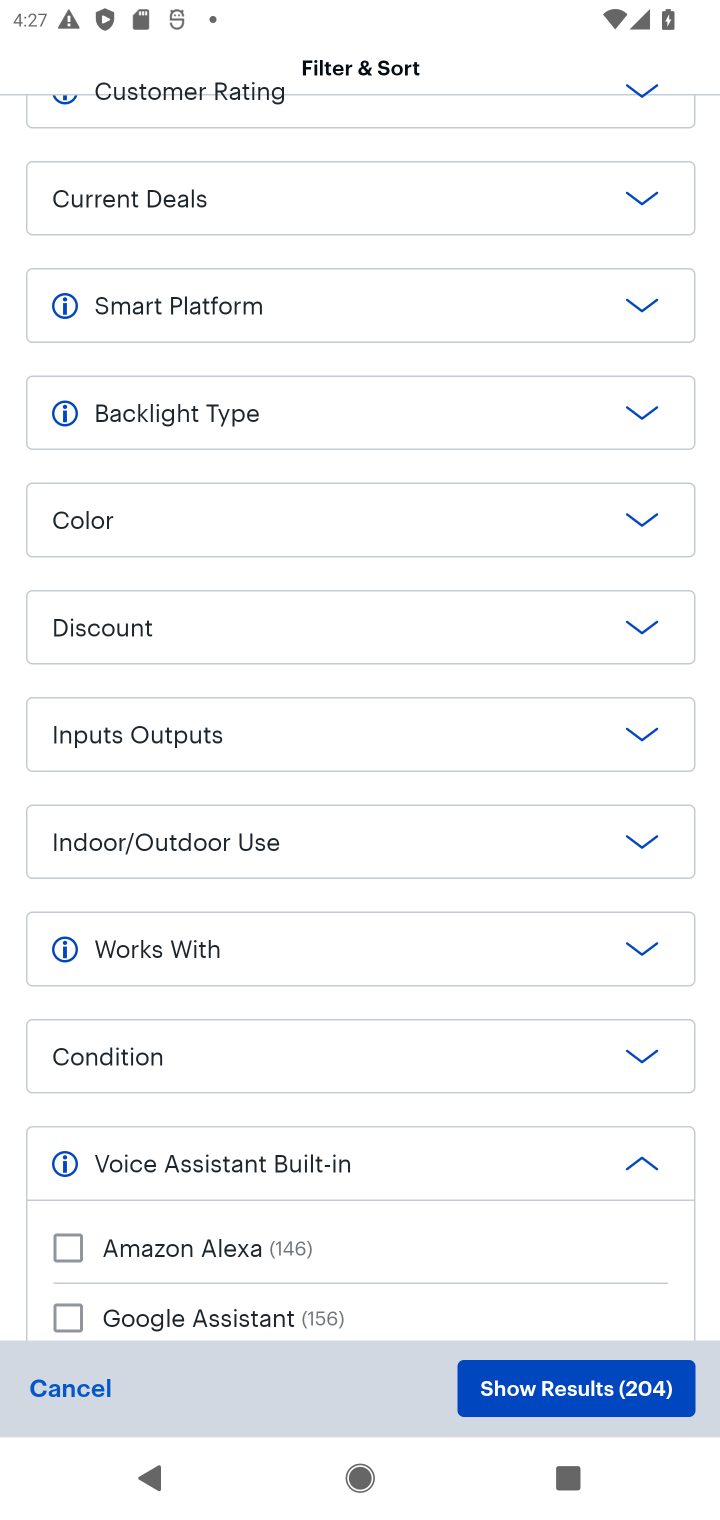
Step 30: drag from (710, 1270) to (653, 242)
Your task to perform on an android device: Check out the best rated 4k TV on Best Buy. Image 31: 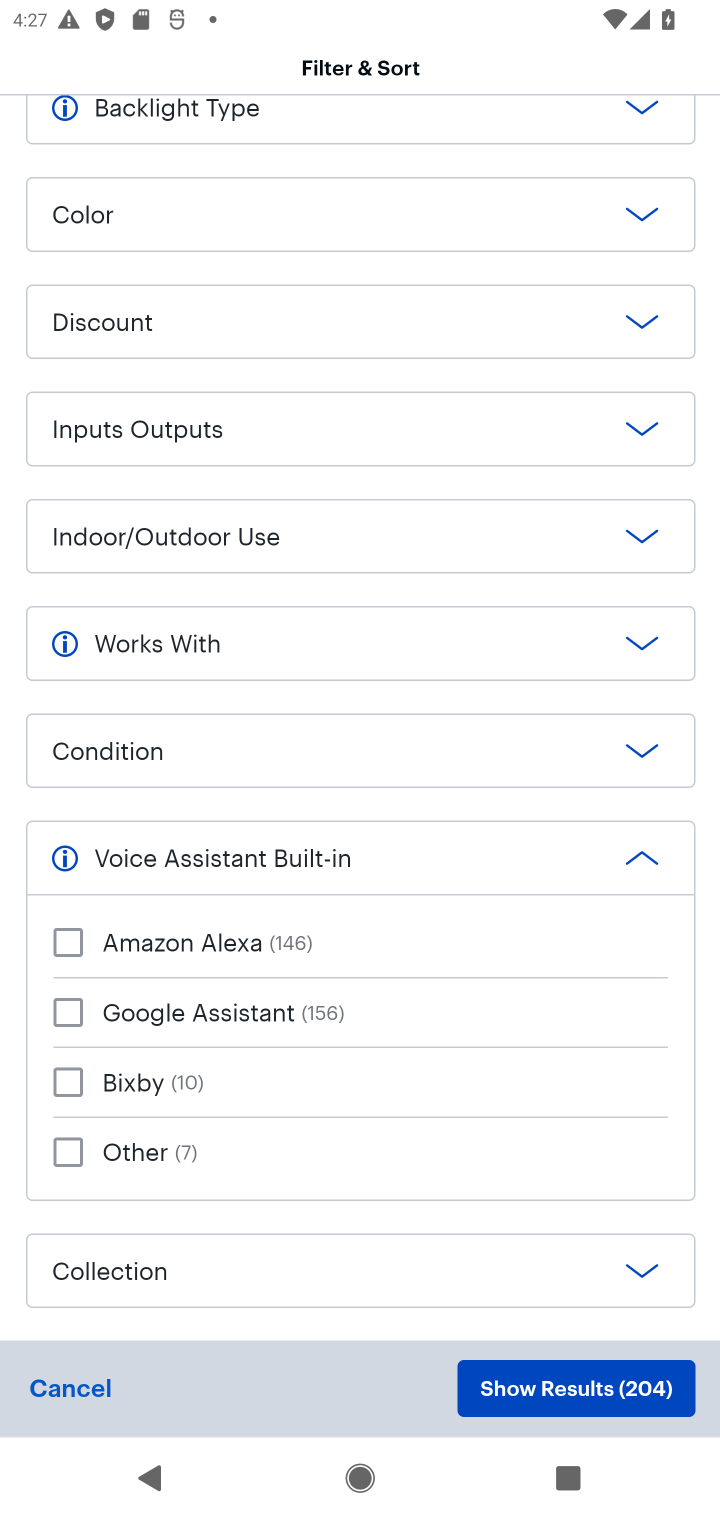
Step 31: drag from (707, 1296) to (602, 199)
Your task to perform on an android device: Check out the best rated 4k TV on Best Buy. Image 32: 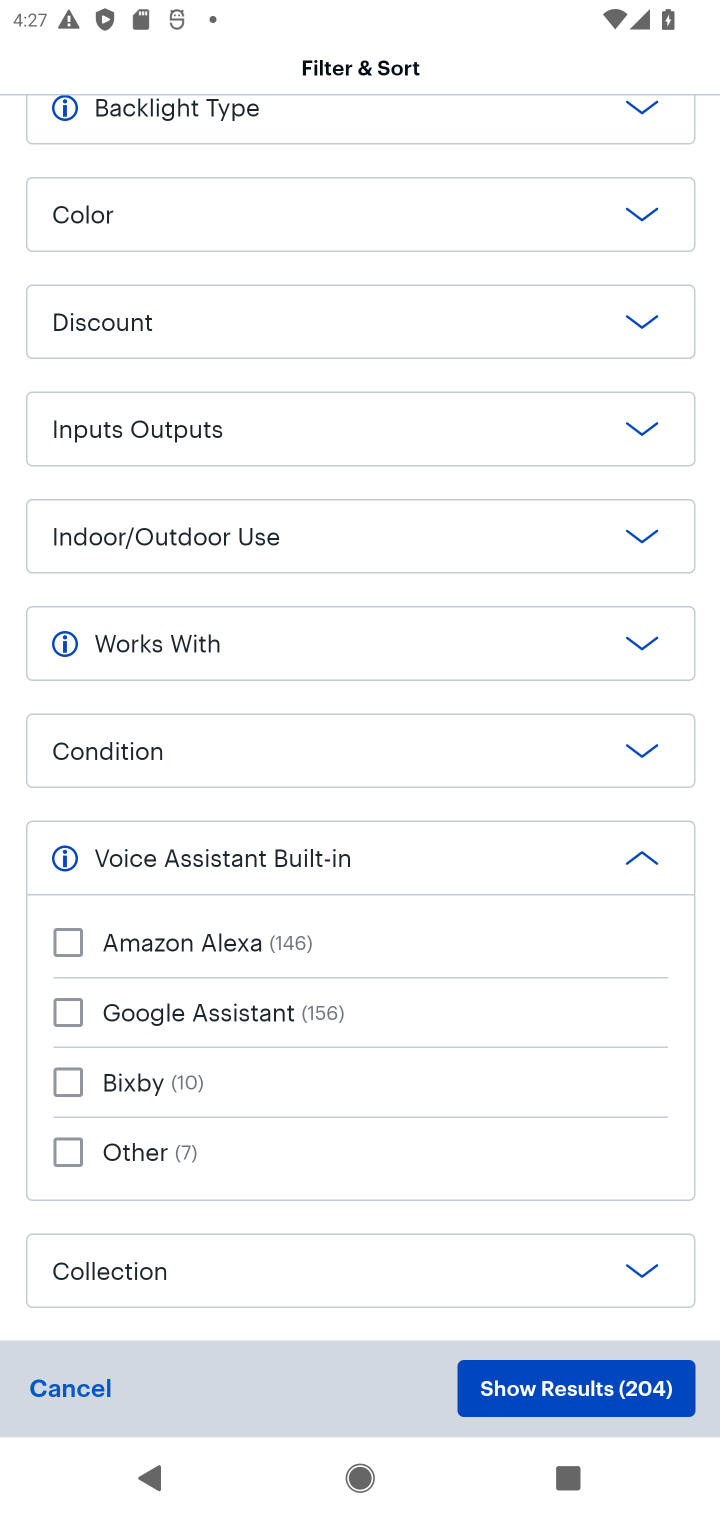
Step 32: drag from (714, 1306) to (653, 403)
Your task to perform on an android device: Check out the best rated 4k TV on Best Buy. Image 33: 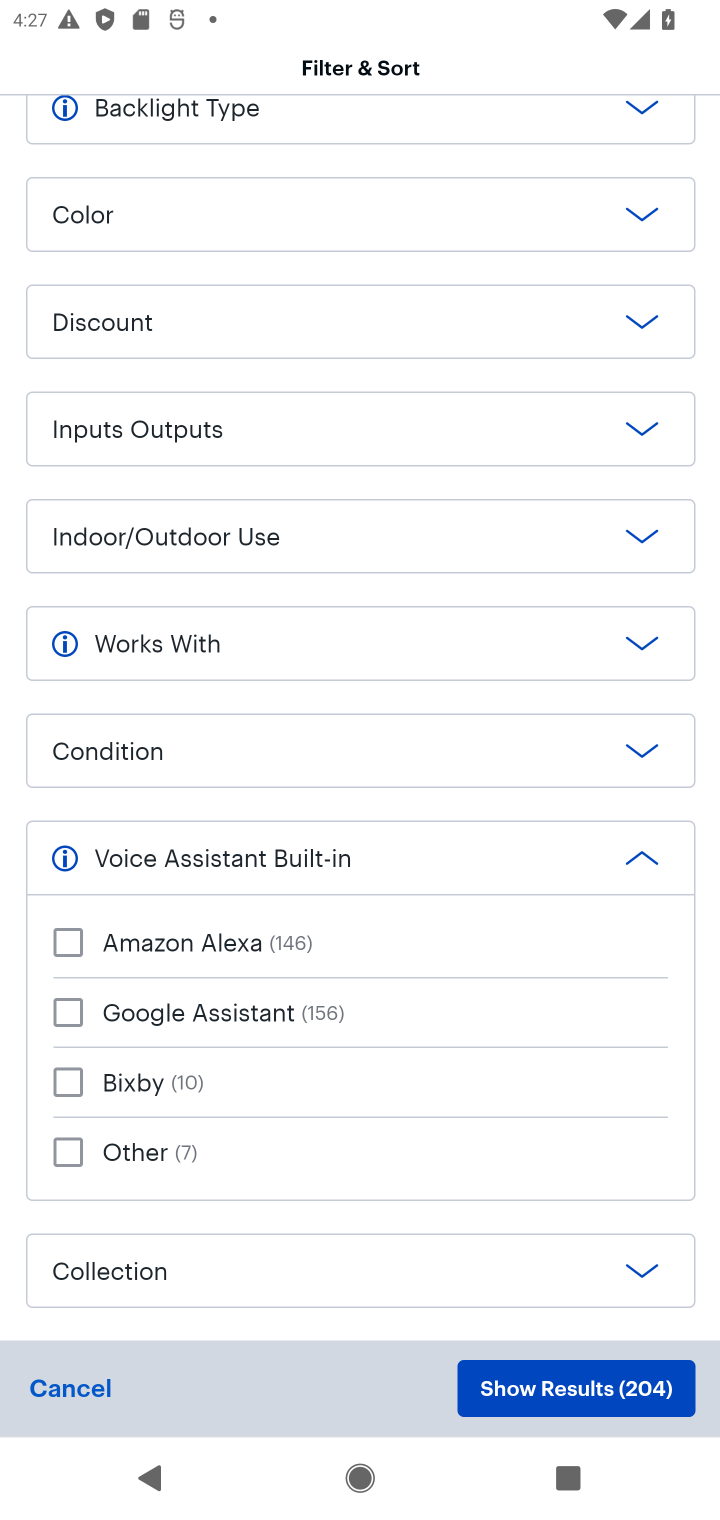
Step 33: drag from (244, 692) to (234, 1363)
Your task to perform on an android device: Check out the best rated 4k TV on Best Buy. Image 34: 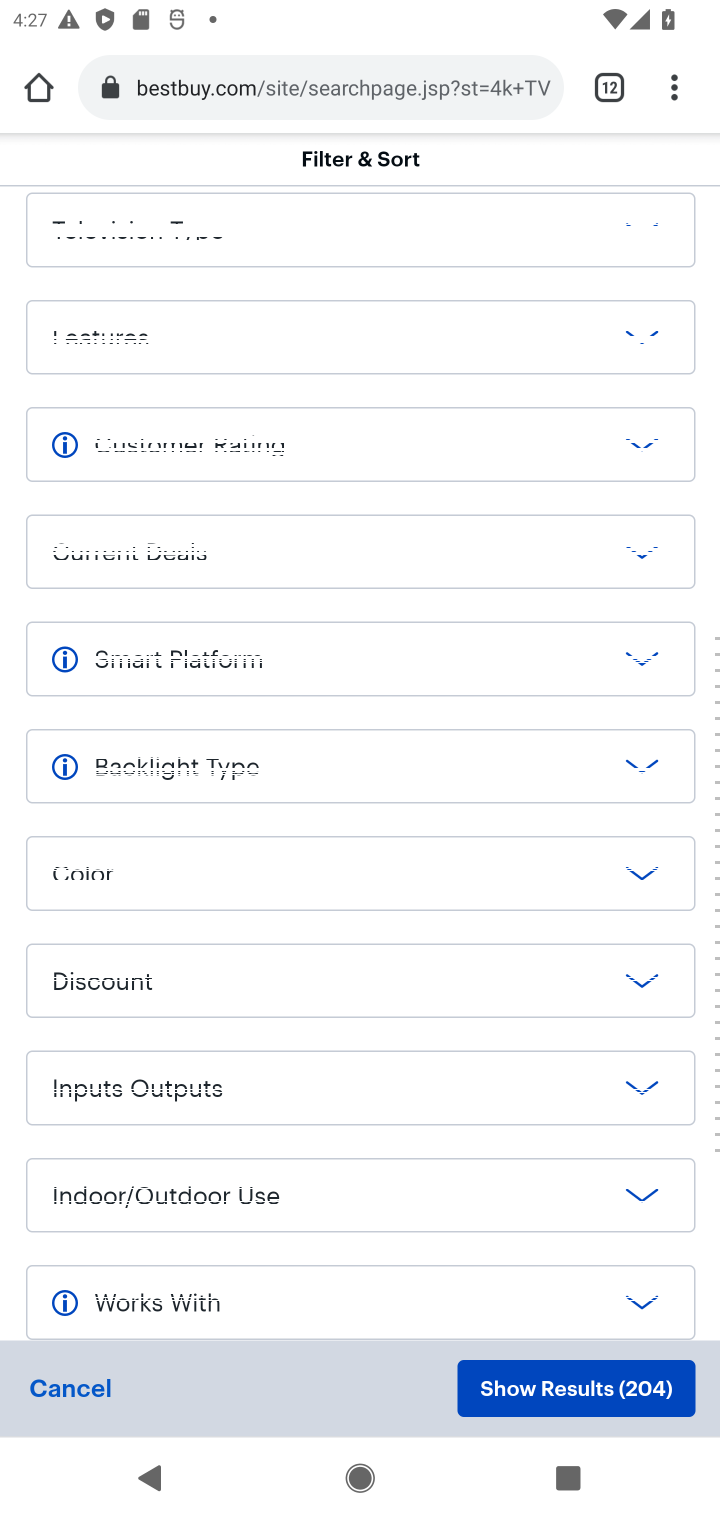
Step 34: click (628, 454)
Your task to perform on an android device: Check out the best rated 4k TV on Best Buy. Image 35: 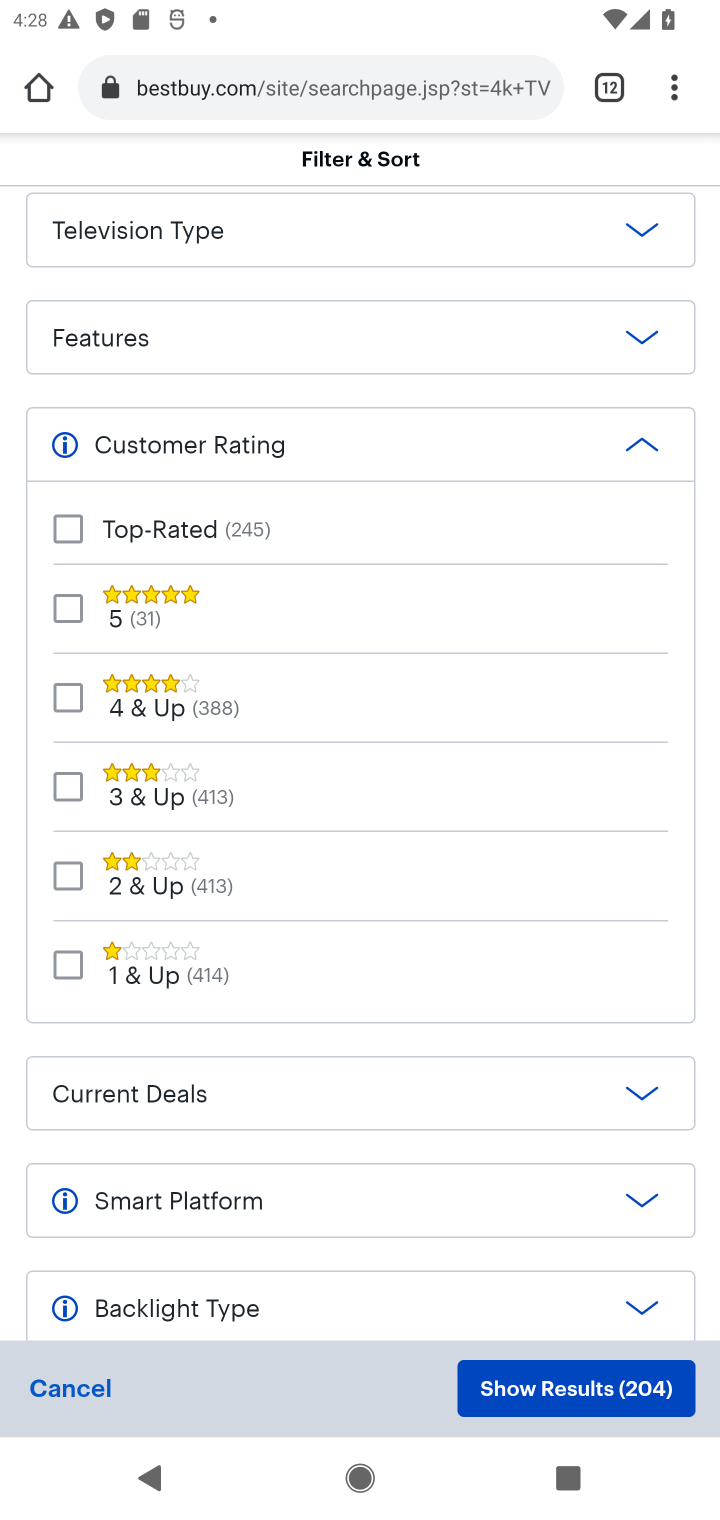
Step 35: click (68, 594)
Your task to perform on an android device: Check out the best rated 4k TV on Best Buy. Image 36: 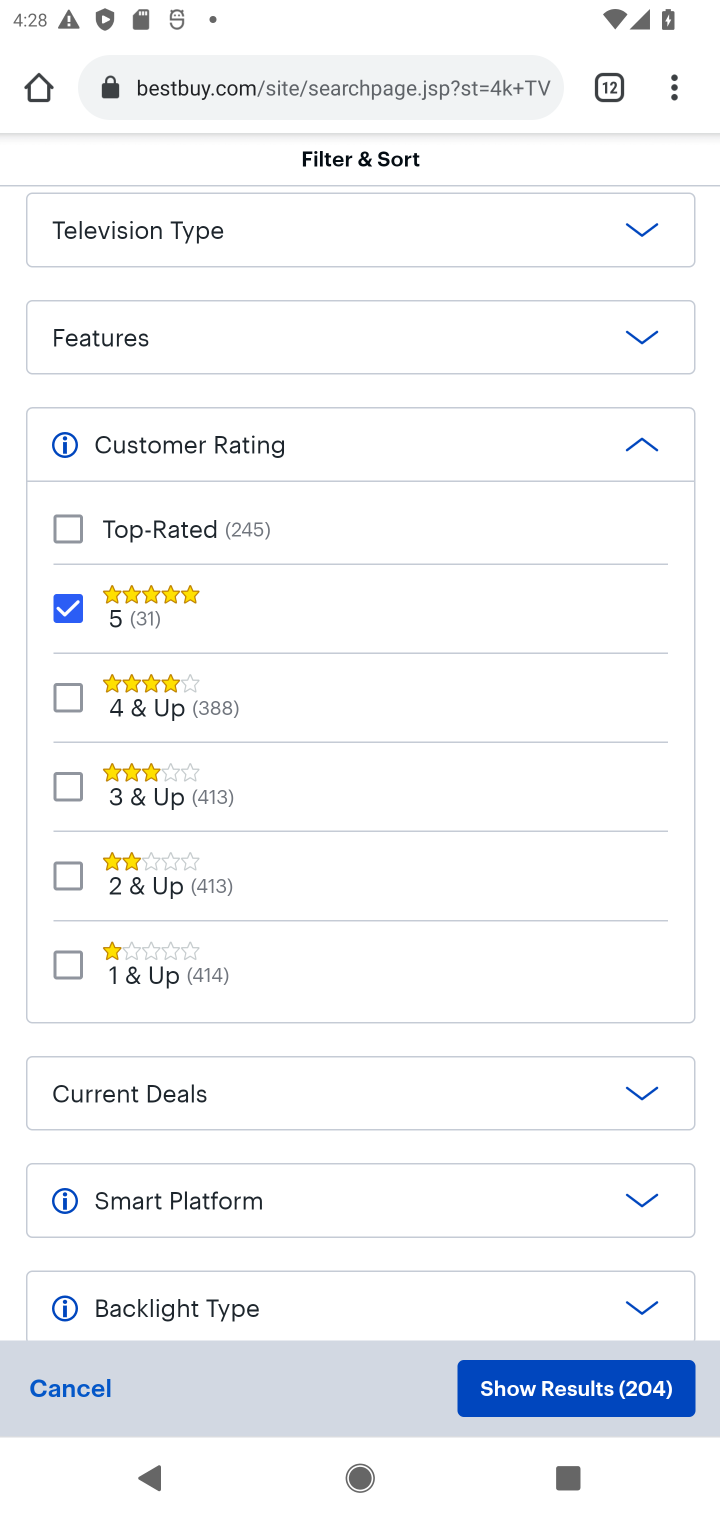
Step 36: click (617, 1380)
Your task to perform on an android device: Check out the best rated 4k TV on Best Buy. Image 37: 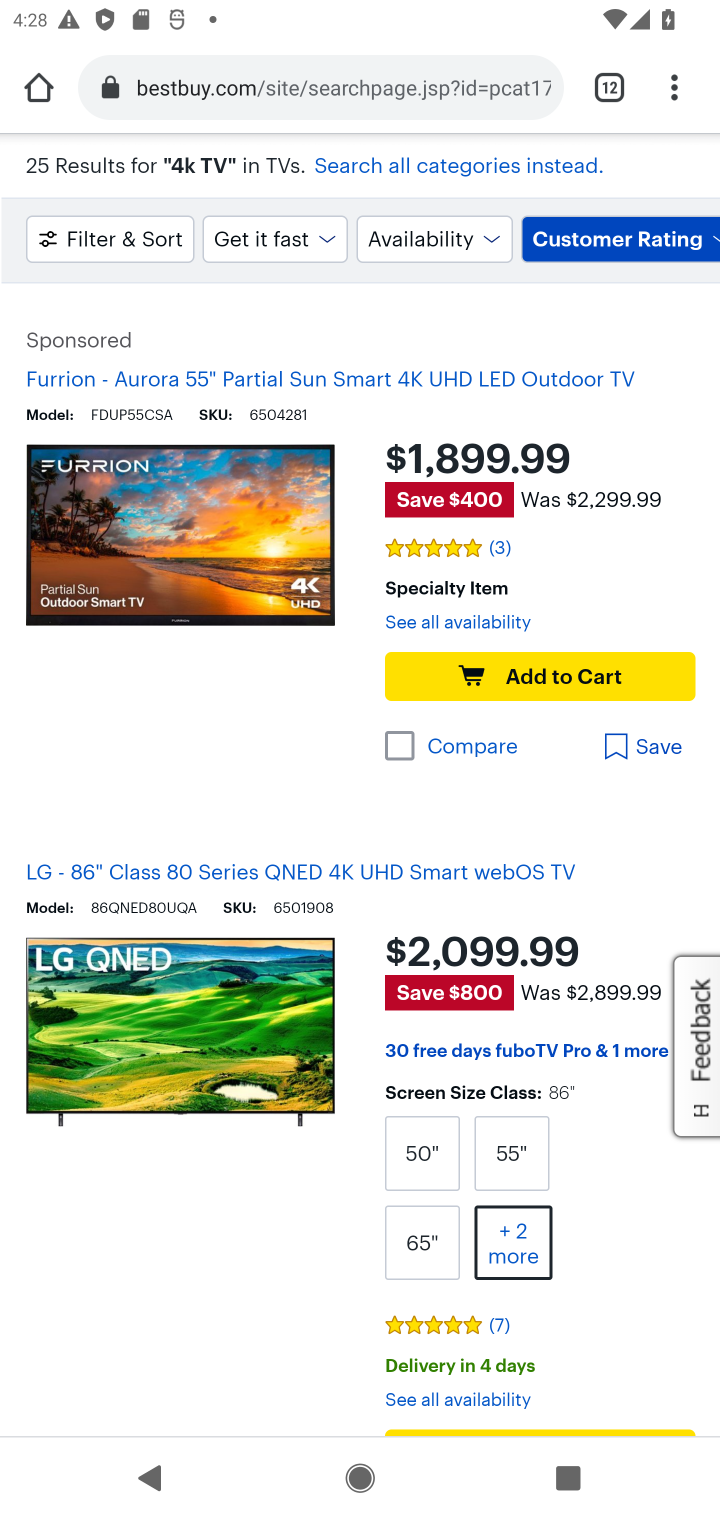
Step 37: task complete